Your task to perform on an android device: change the clock display to digital Image 0: 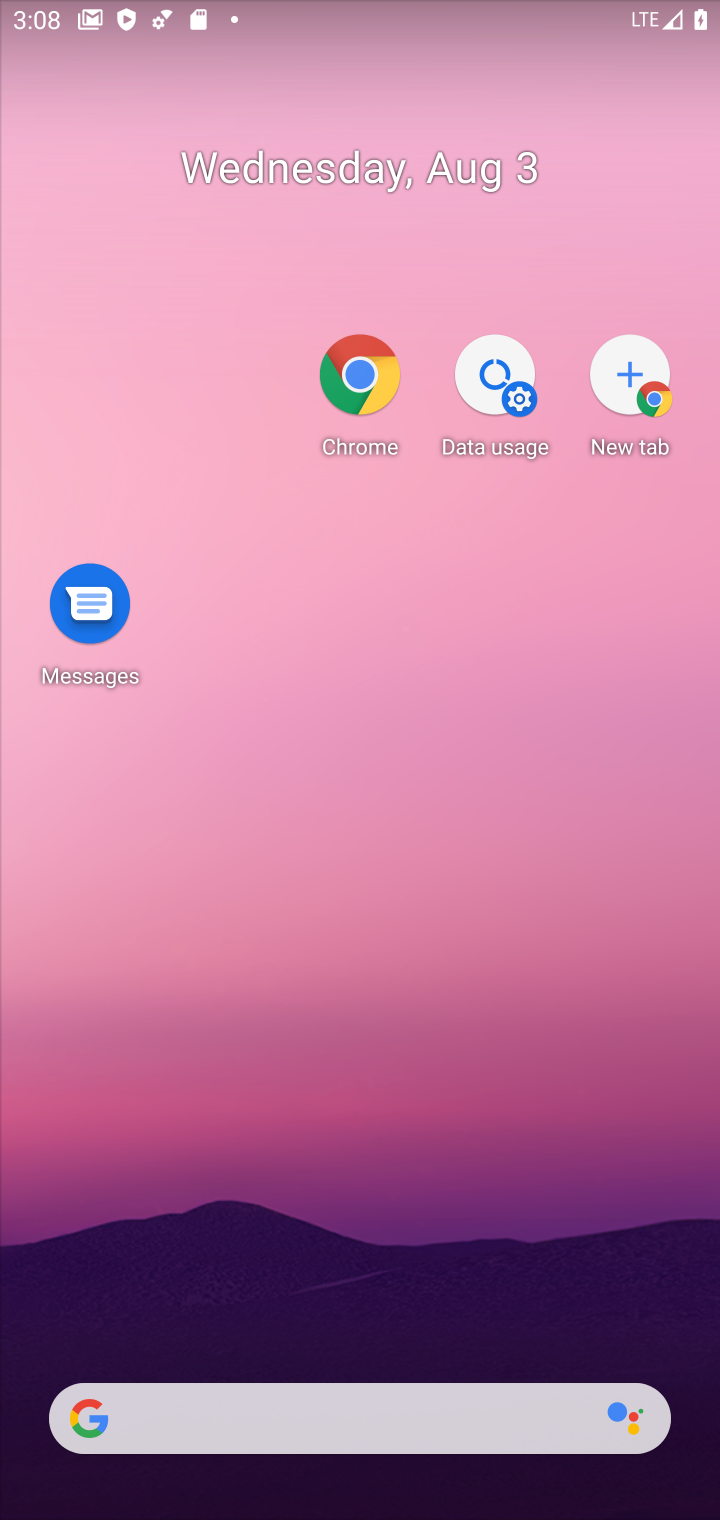
Step 0: press back button
Your task to perform on an android device: change the clock display to digital Image 1: 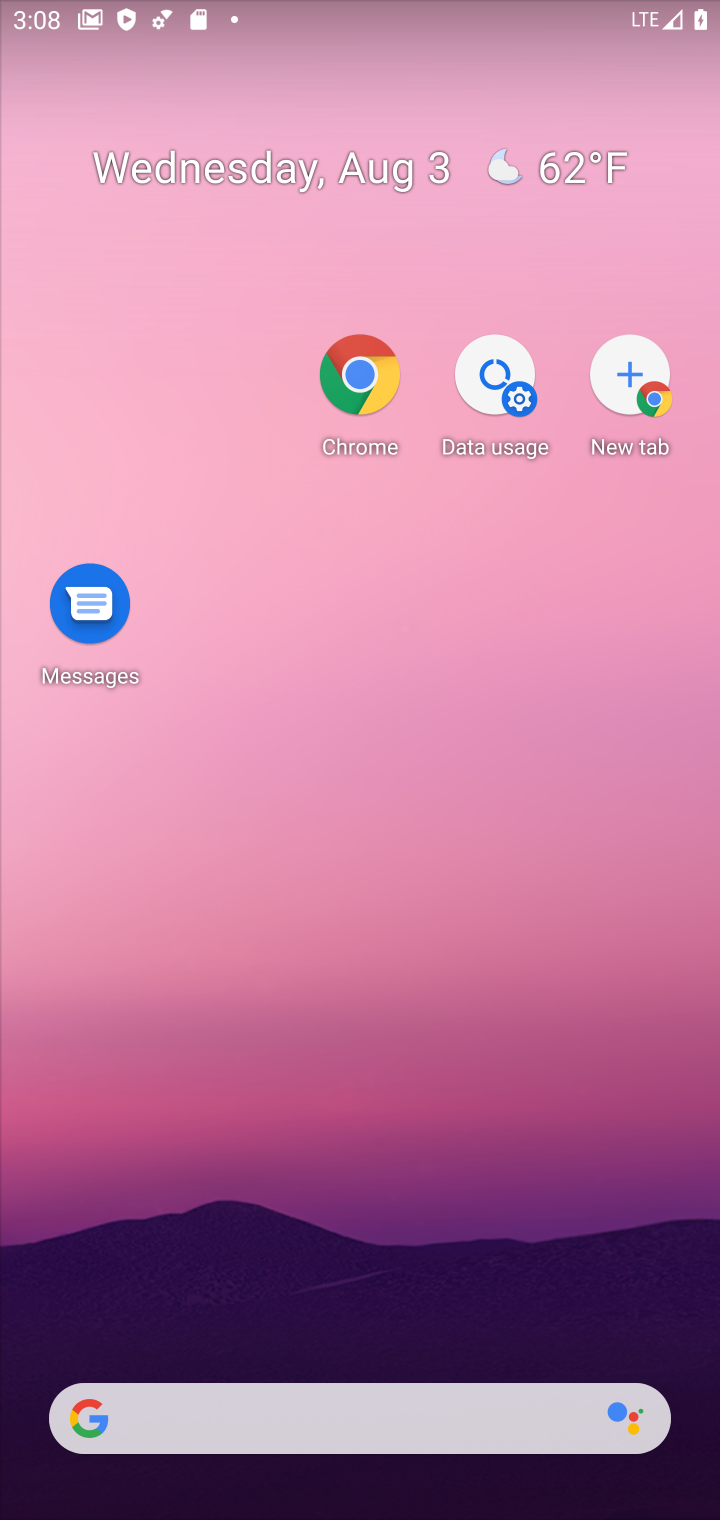
Step 1: drag from (352, 1120) to (355, 339)
Your task to perform on an android device: change the clock display to digital Image 2: 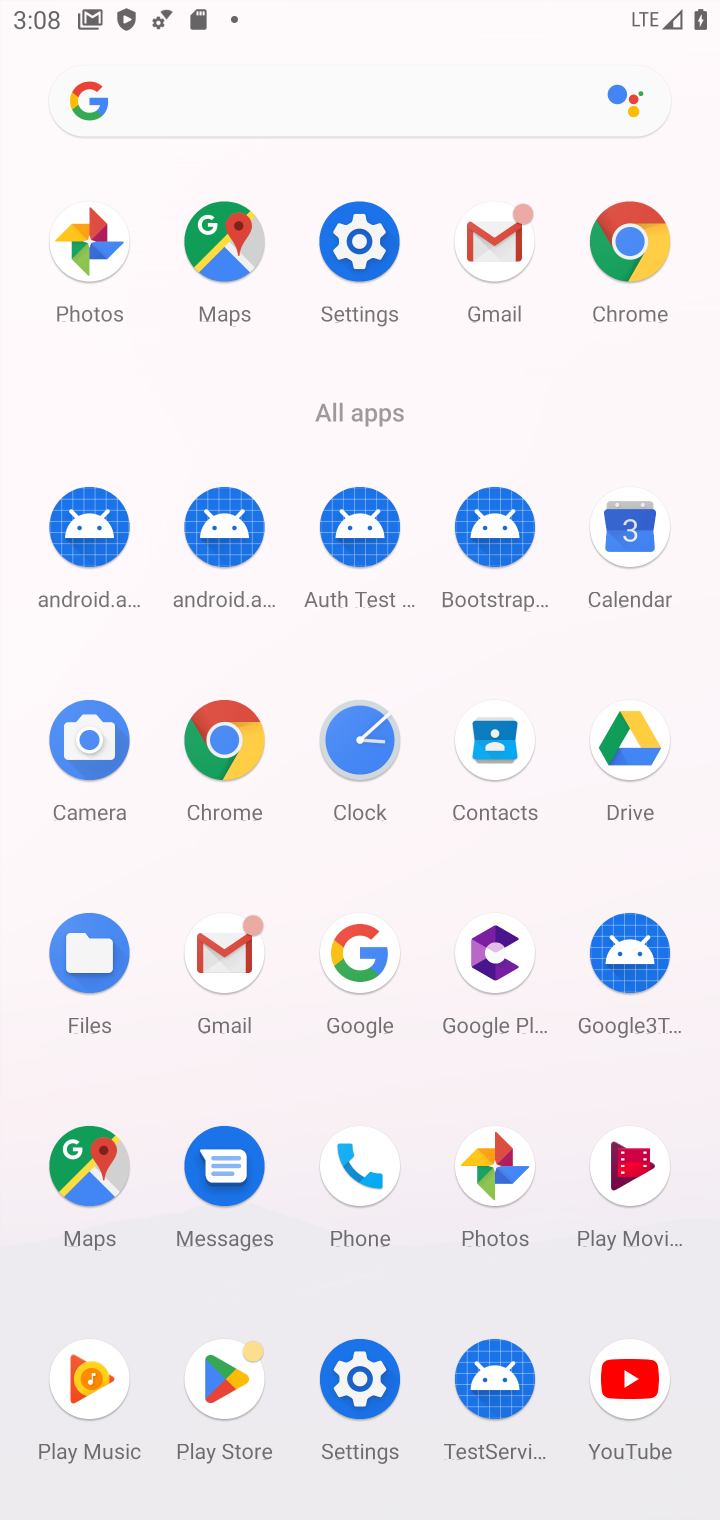
Step 2: click (357, 738)
Your task to perform on an android device: change the clock display to digital Image 3: 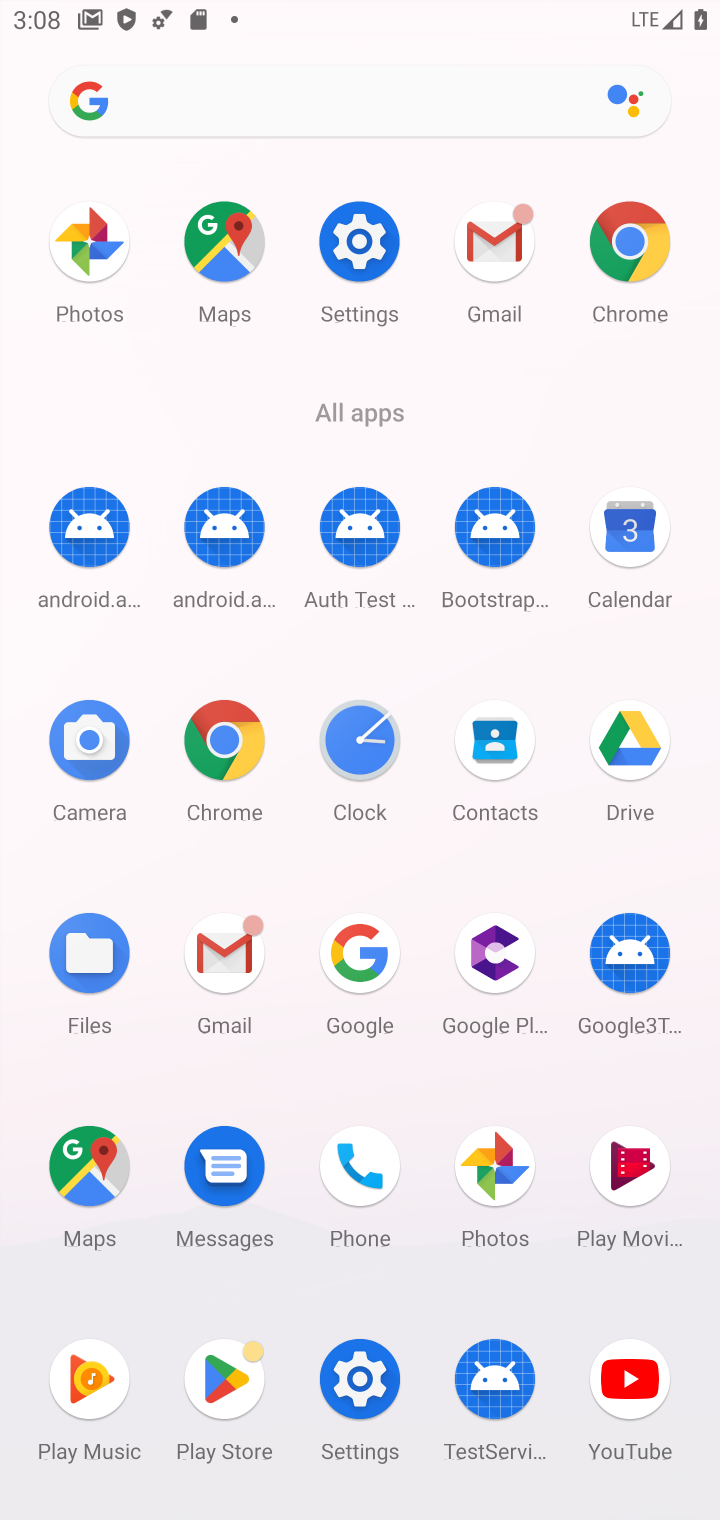
Step 3: click (357, 738)
Your task to perform on an android device: change the clock display to digital Image 4: 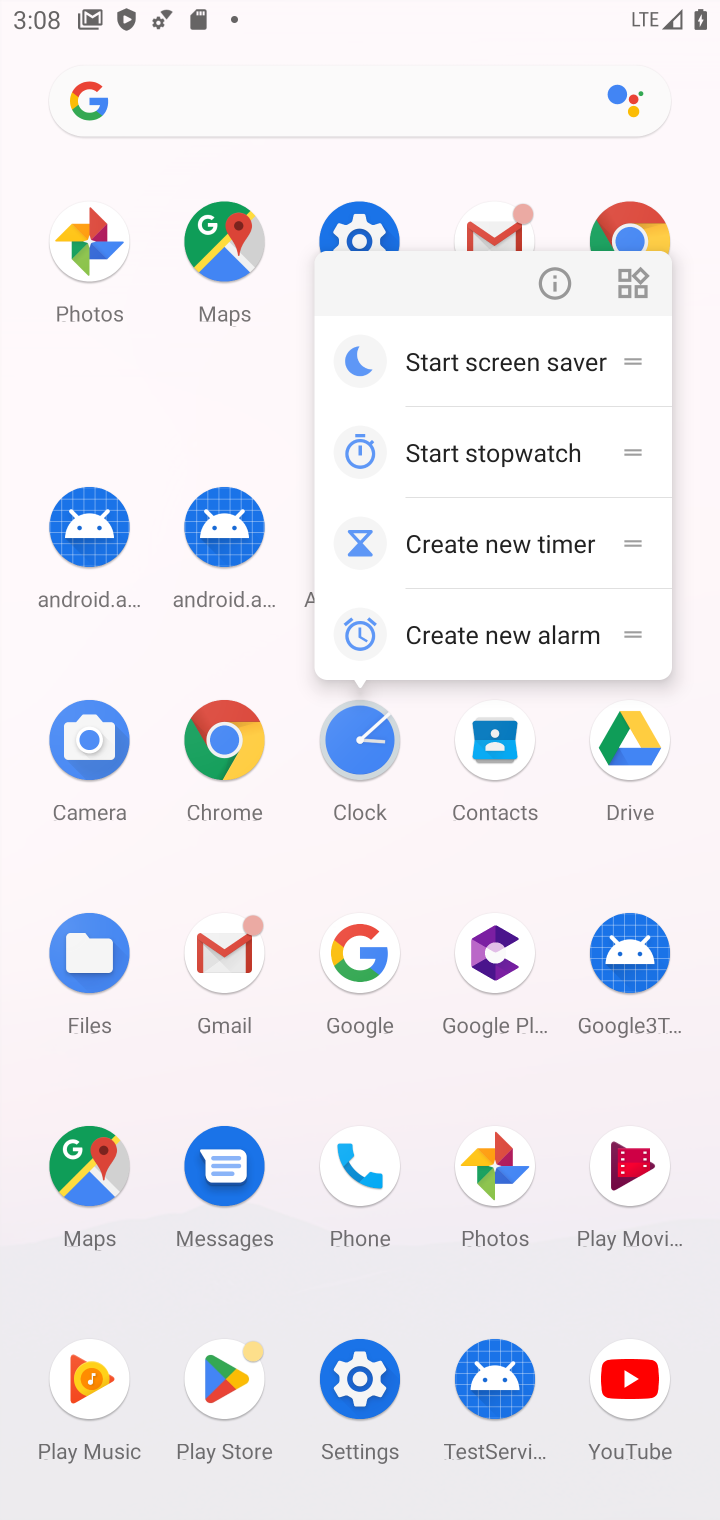
Step 4: click (218, 401)
Your task to perform on an android device: change the clock display to digital Image 5: 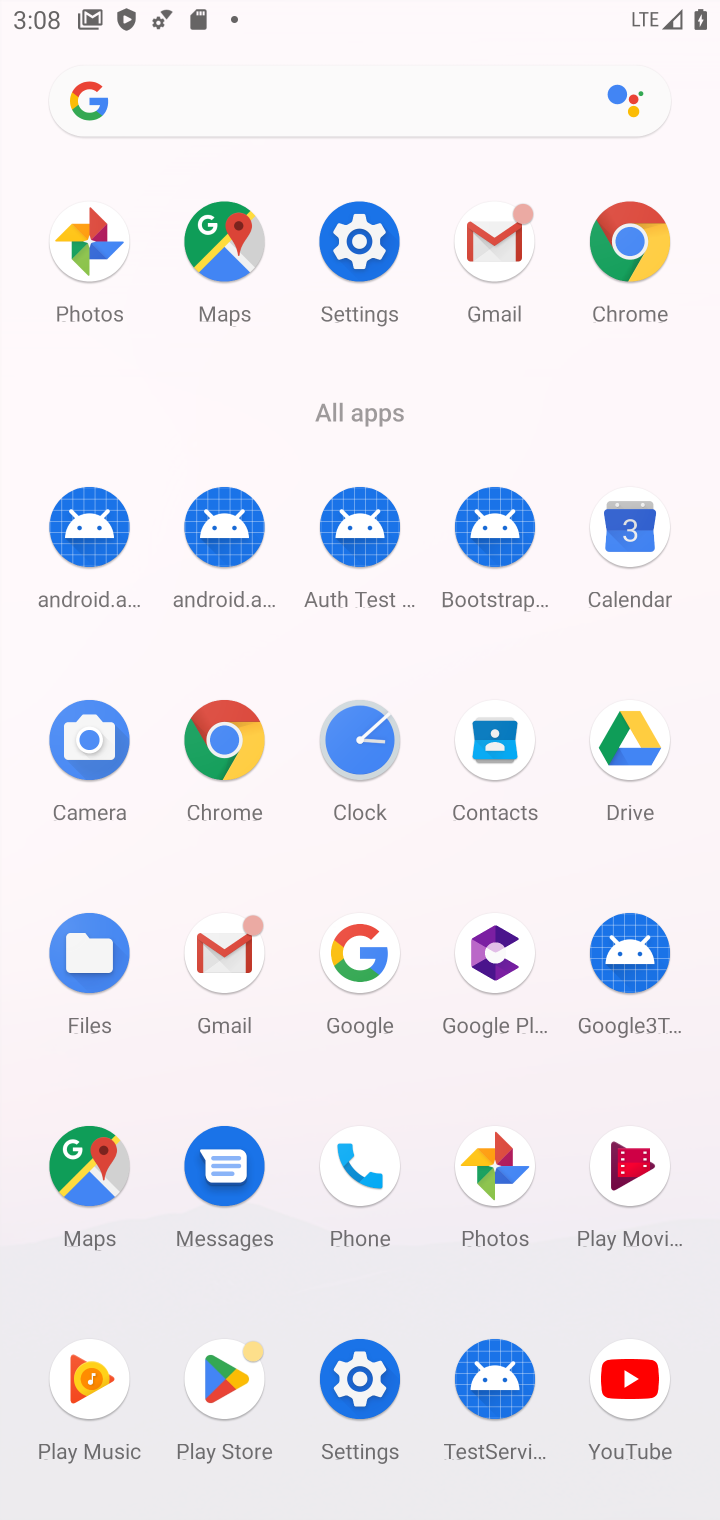
Step 5: click (218, 379)
Your task to perform on an android device: change the clock display to digital Image 6: 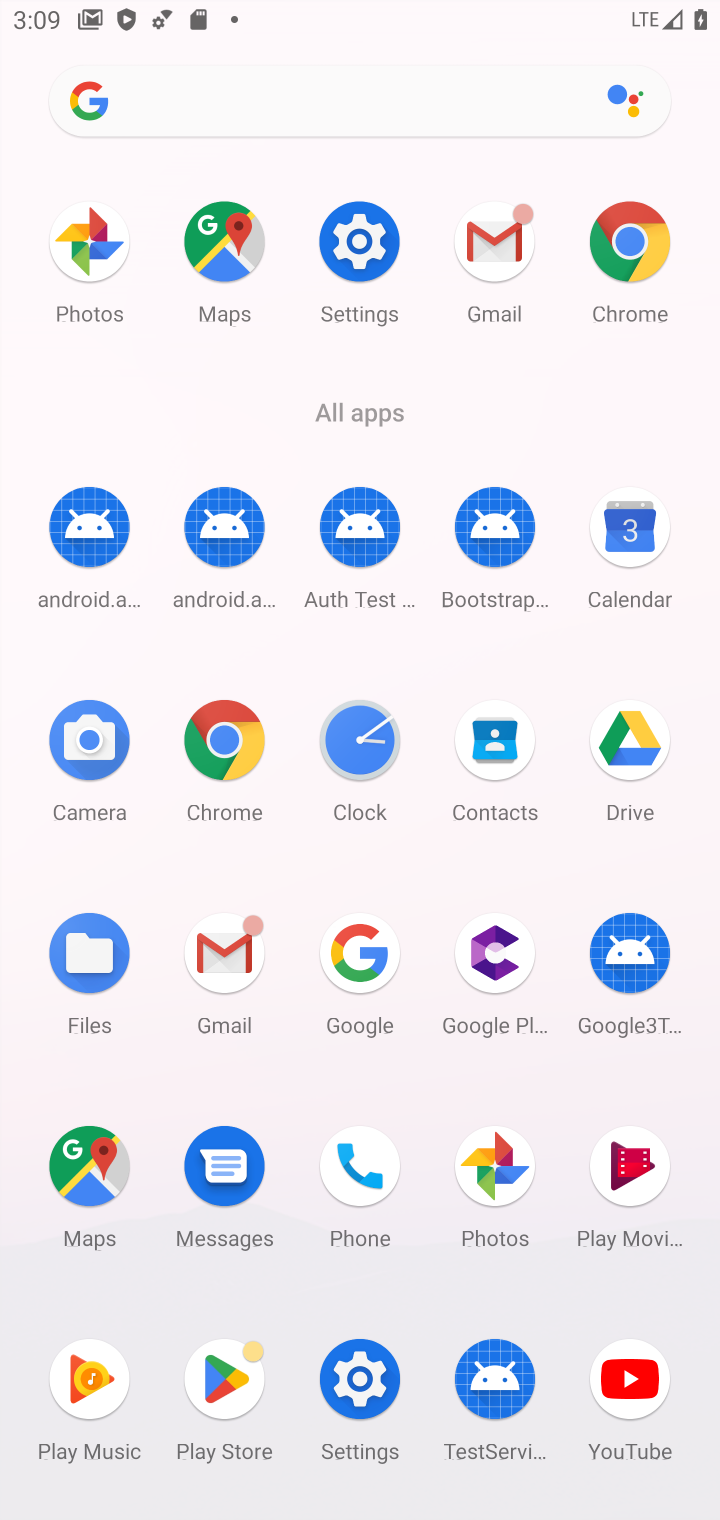
Step 6: click (359, 745)
Your task to perform on an android device: change the clock display to digital Image 7: 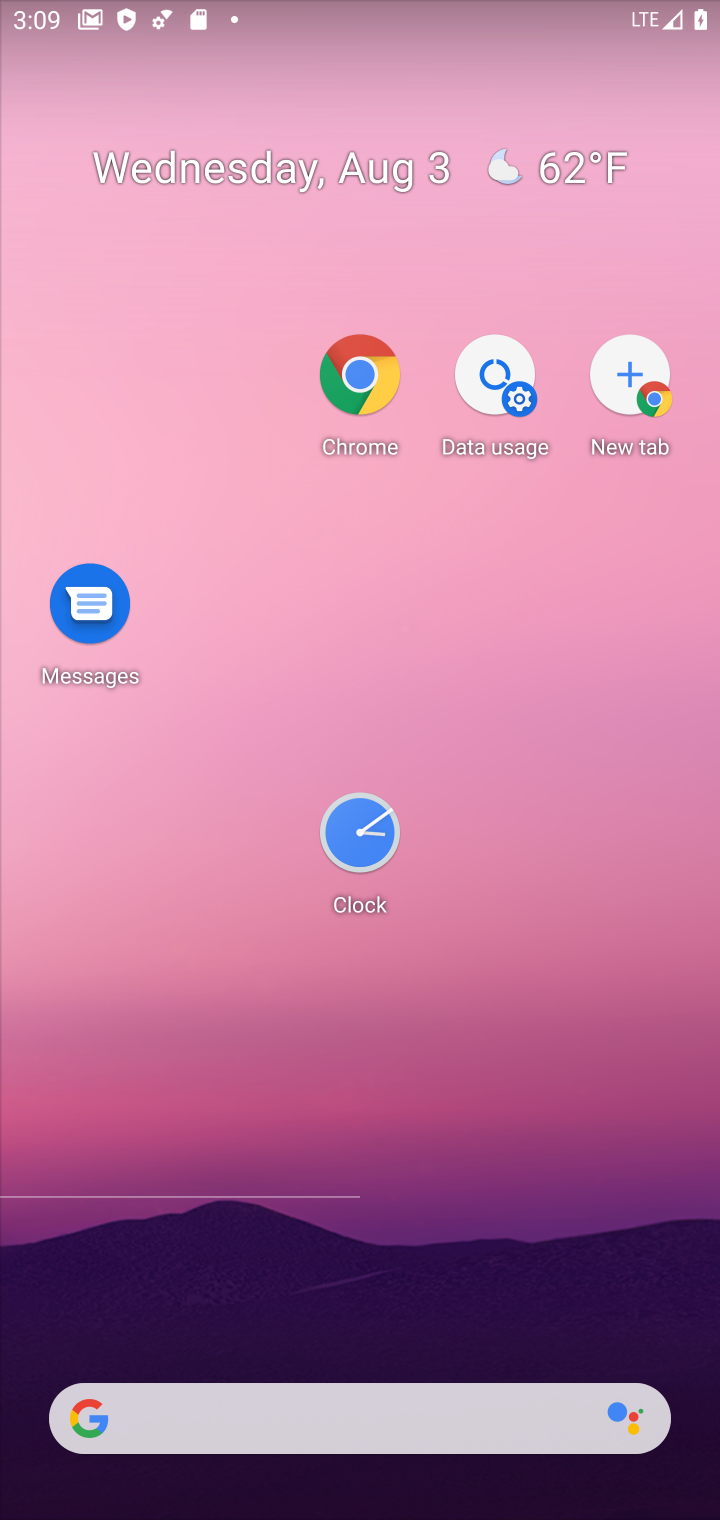
Step 7: drag from (148, 19) to (368, 607)
Your task to perform on an android device: change the clock display to digital Image 8: 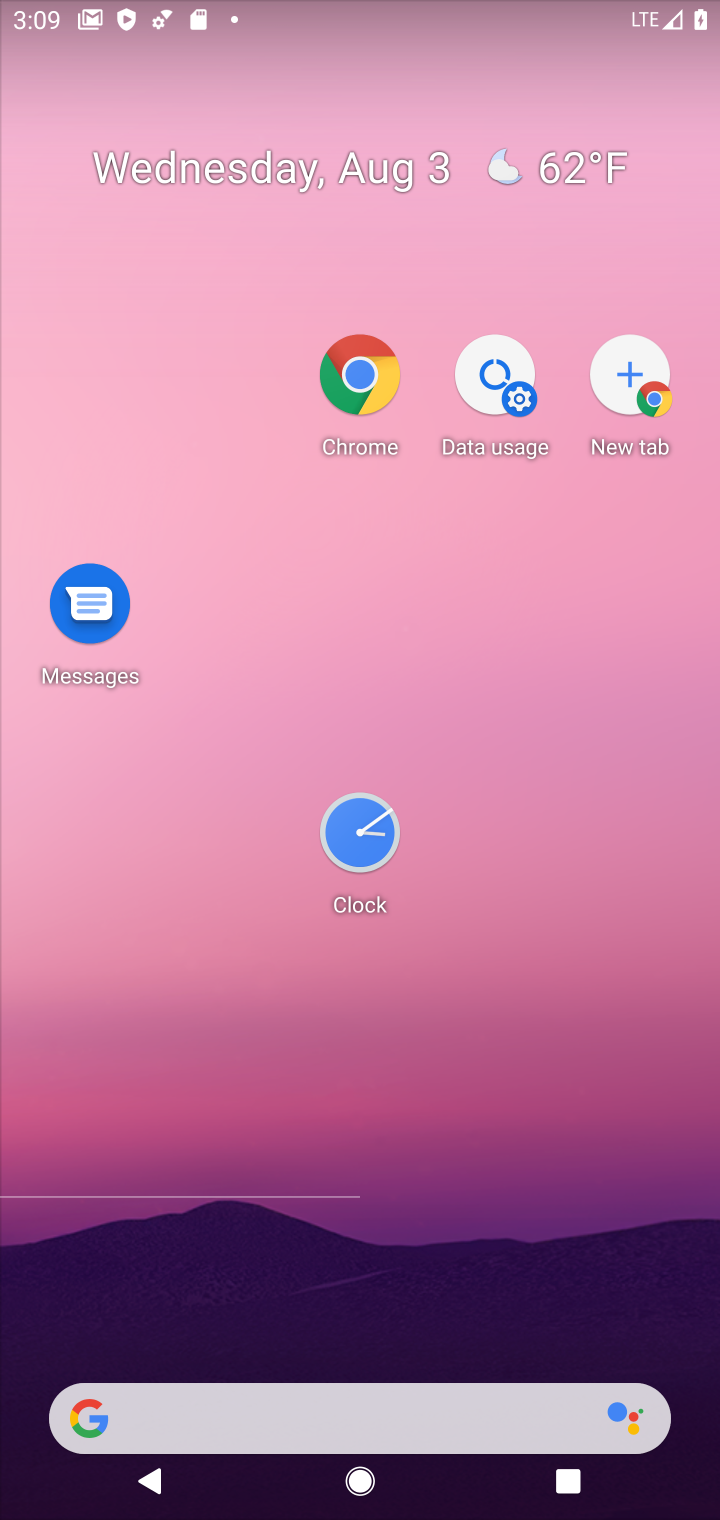
Step 8: drag from (414, 899) to (239, 91)
Your task to perform on an android device: change the clock display to digital Image 9: 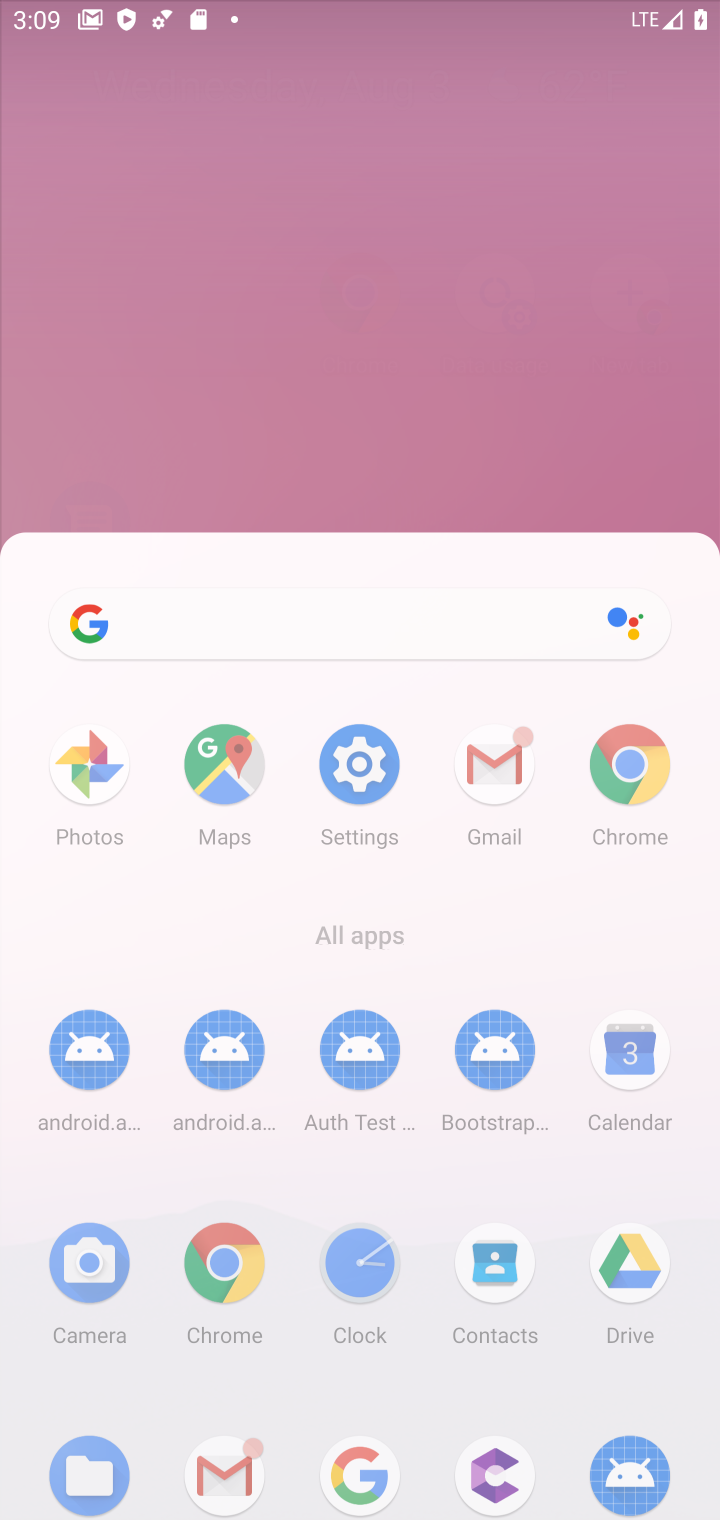
Step 9: click (364, 836)
Your task to perform on an android device: change the clock display to digital Image 10: 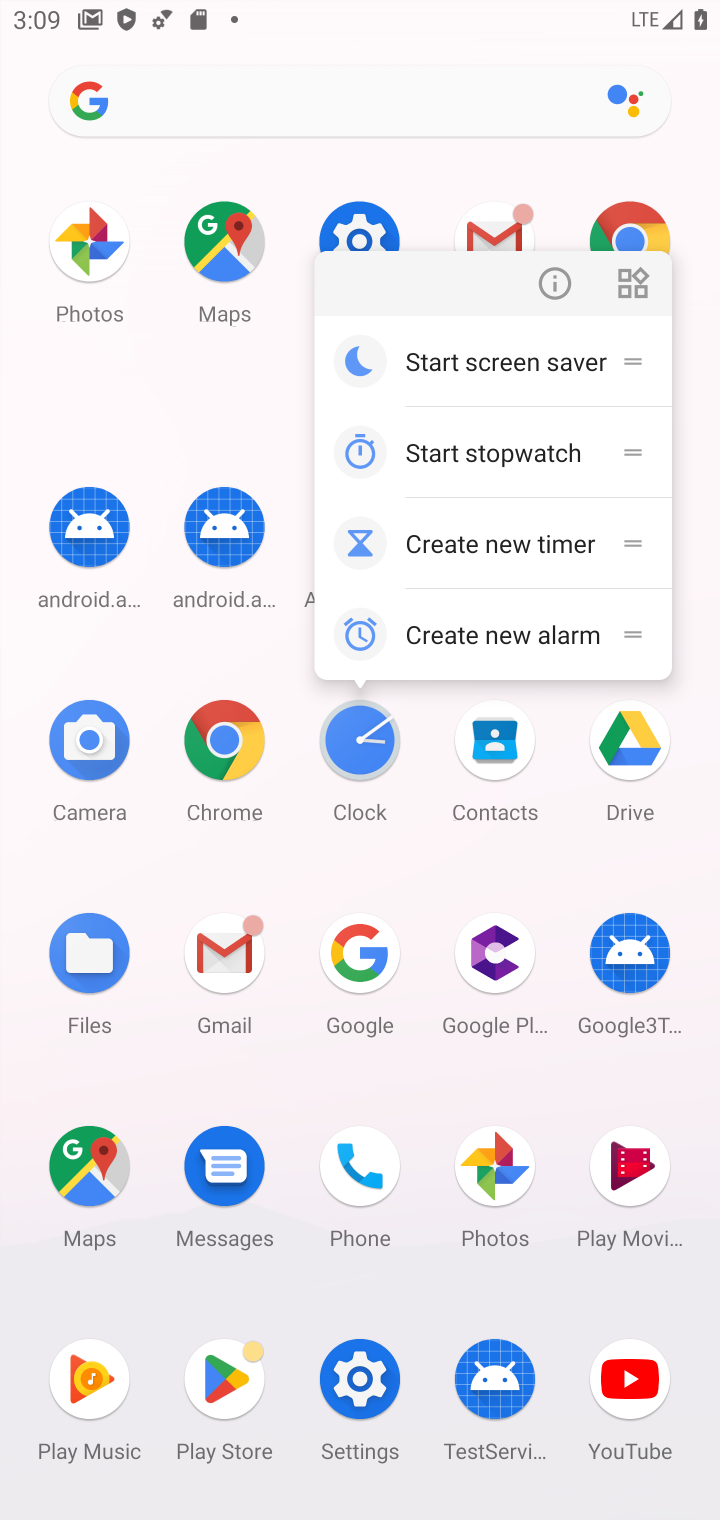
Step 10: click (371, 751)
Your task to perform on an android device: change the clock display to digital Image 11: 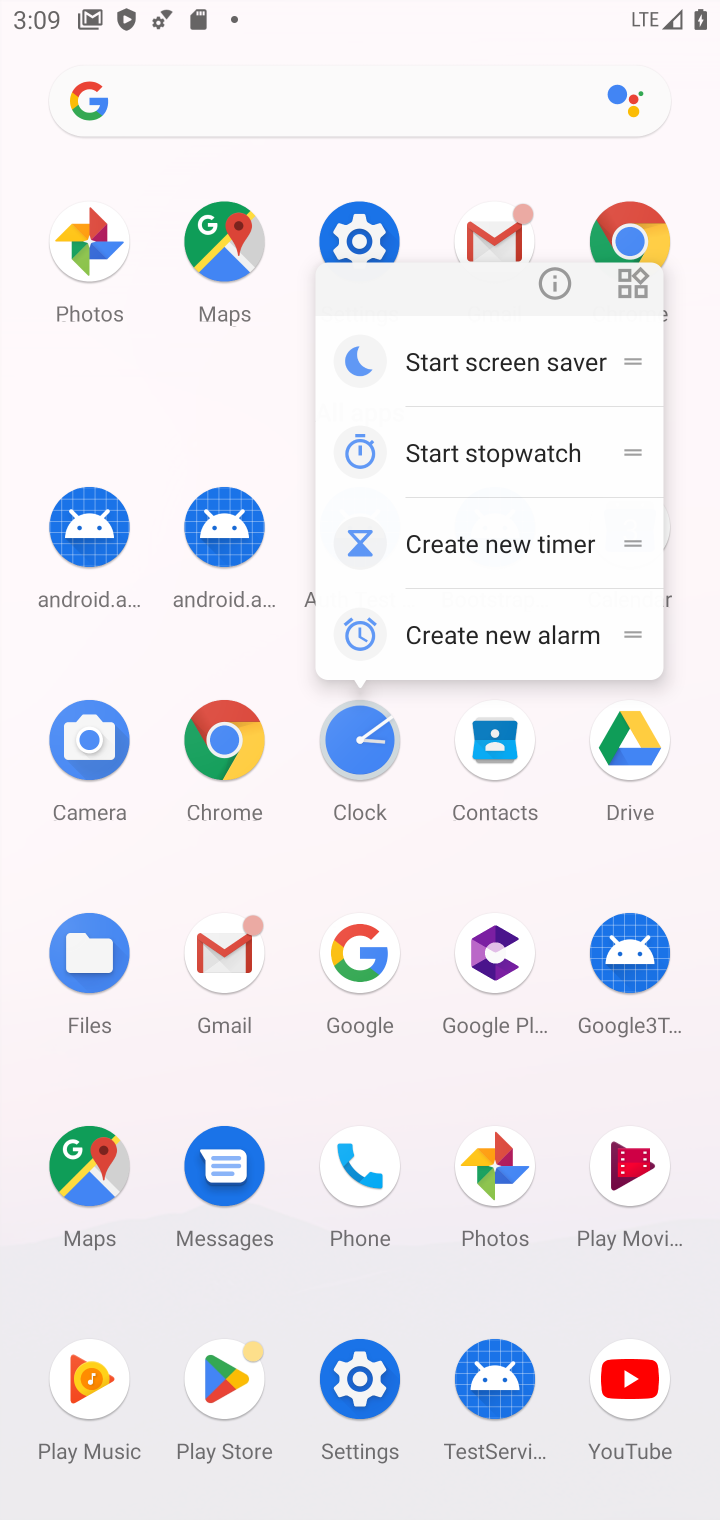
Step 11: click (370, 747)
Your task to perform on an android device: change the clock display to digital Image 12: 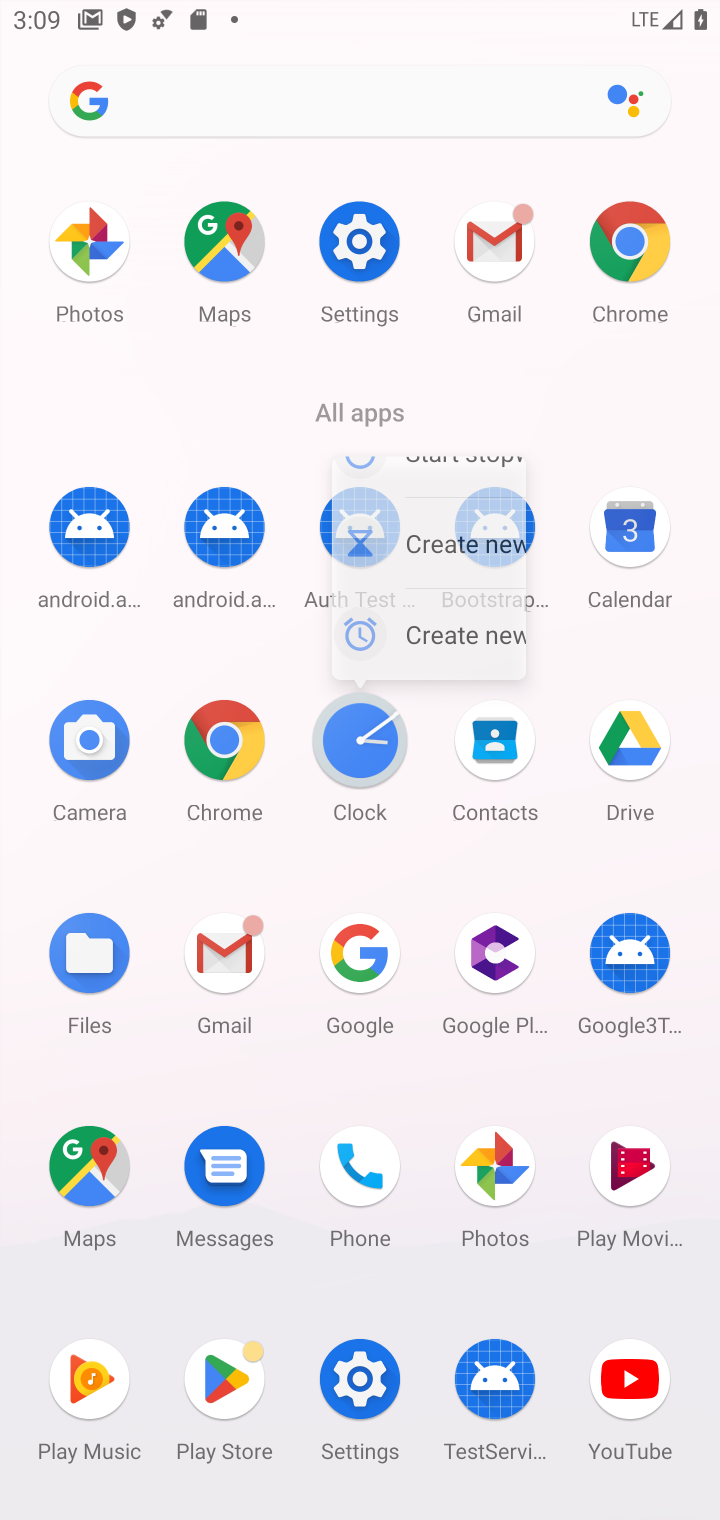
Step 12: click (360, 737)
Your task to perform on an android device: change the clock display to digital Image 13: 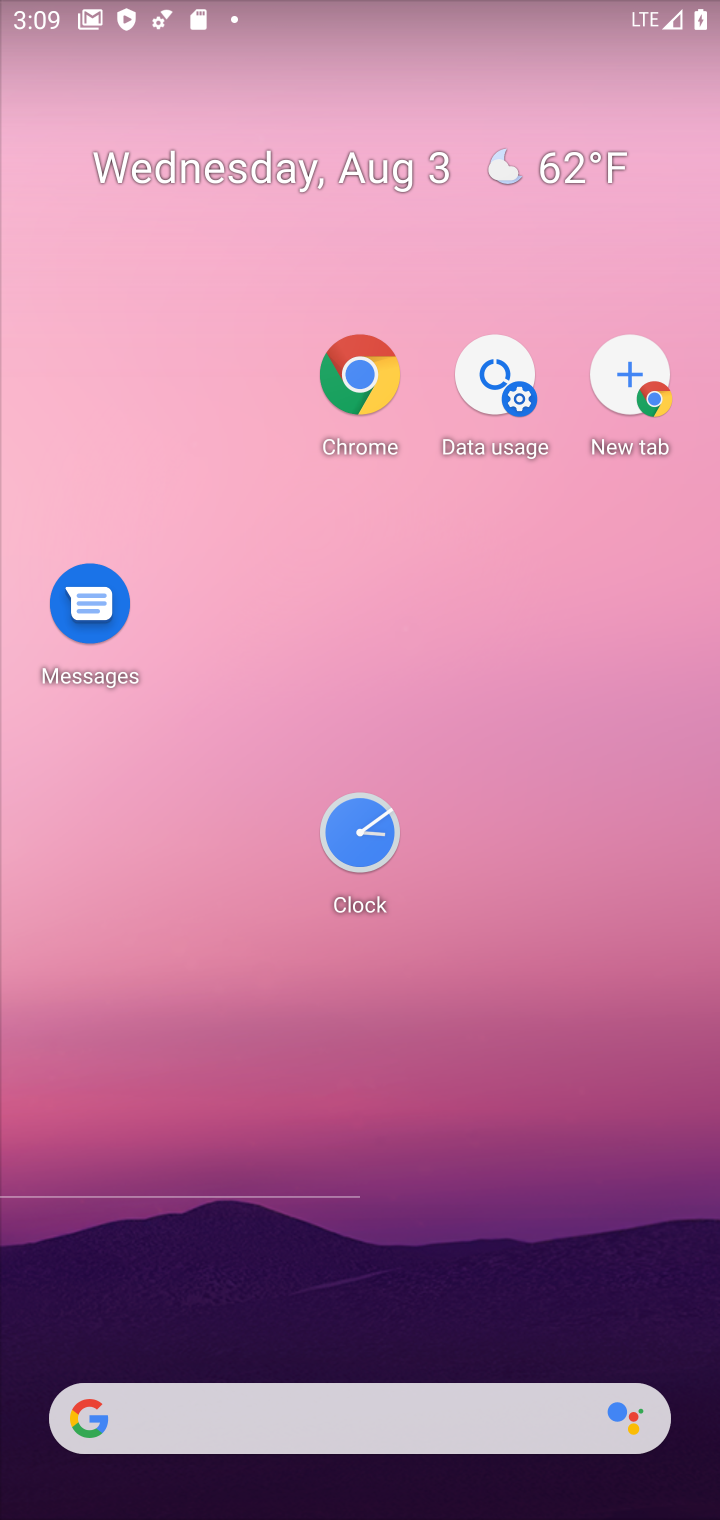
Step 13: drag from (369, 762) to (327, 240)
Your task to perform on an android device: change the clock display to digital Image 14: 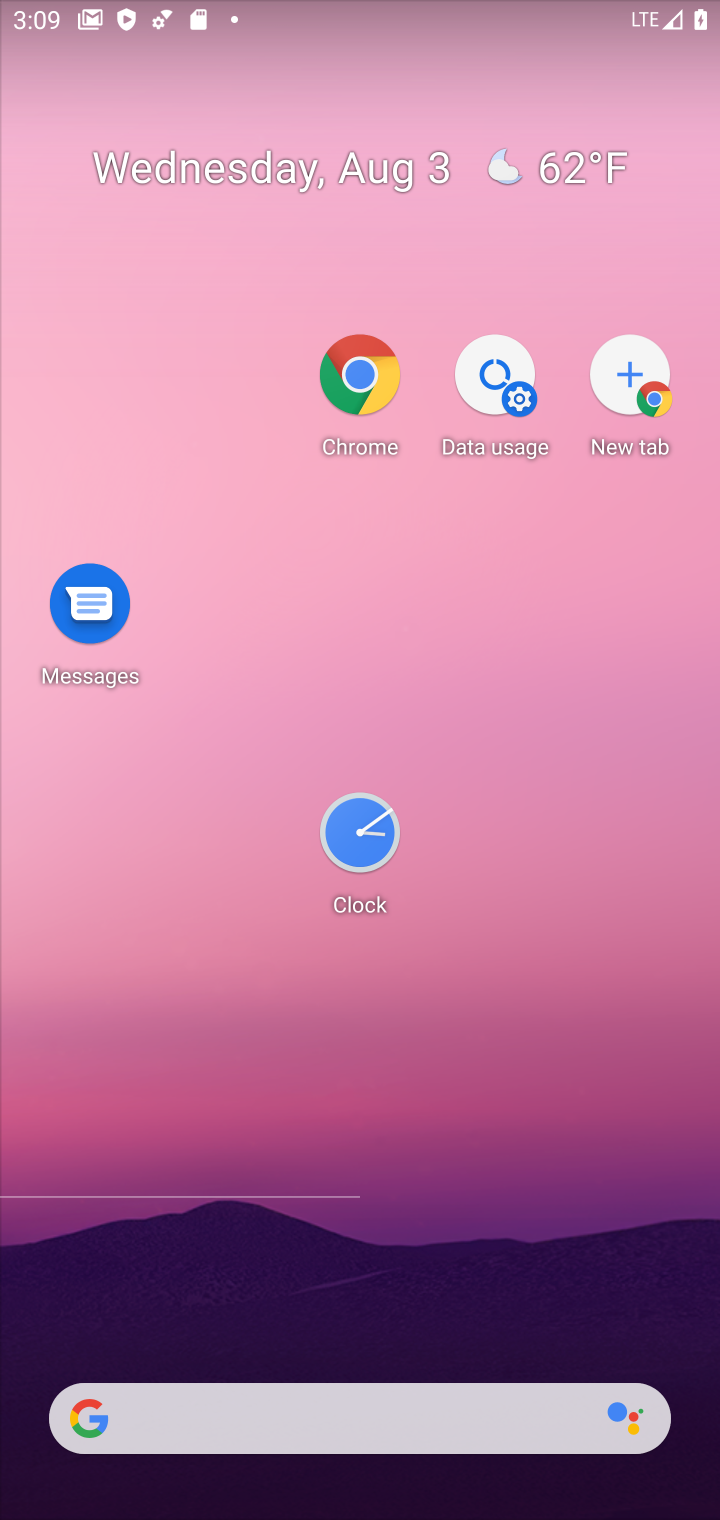
Step 14: click (199, 220)
Your task to perform on an android device: change the clock display to digital Image 15: 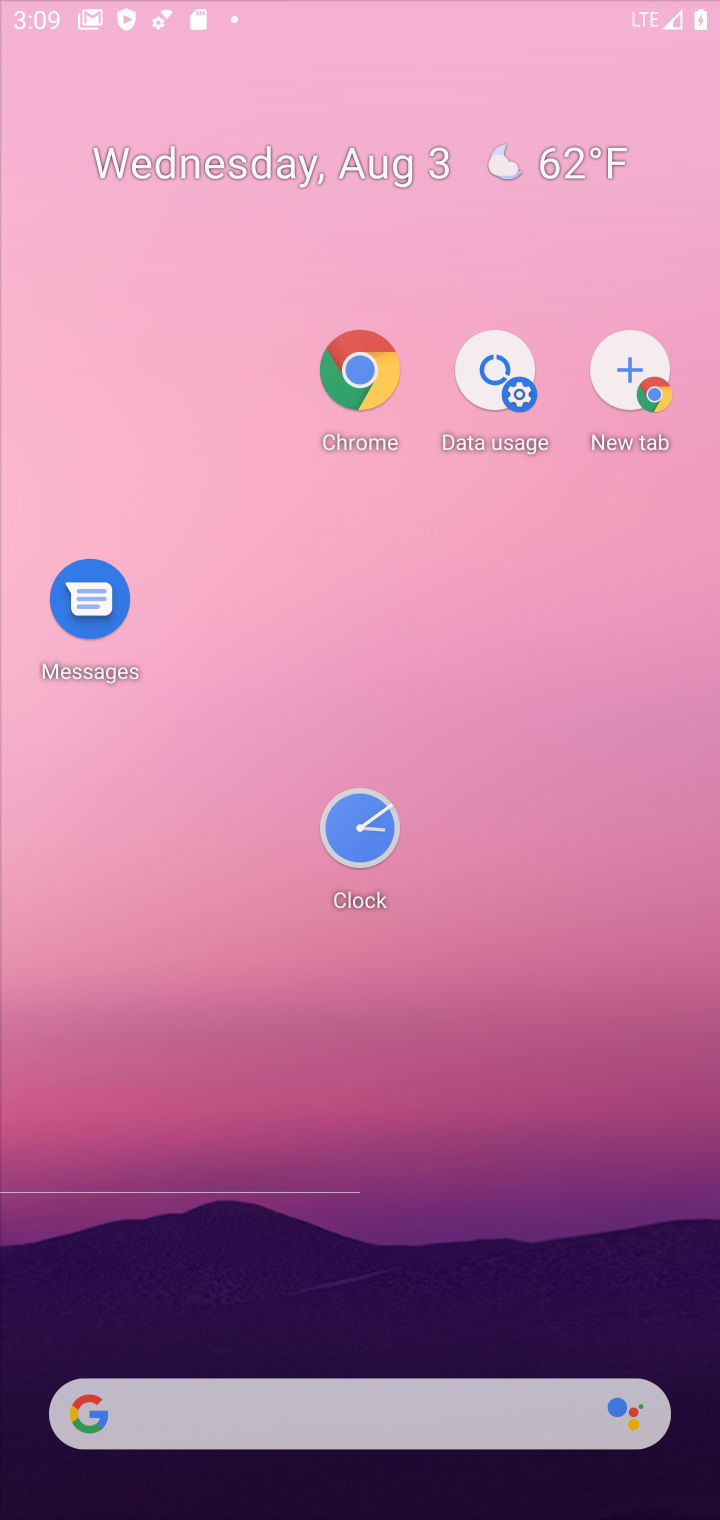
Step 15: click (342, 829)
Your task to perform on an android device: change the clock display to digital Image 16: 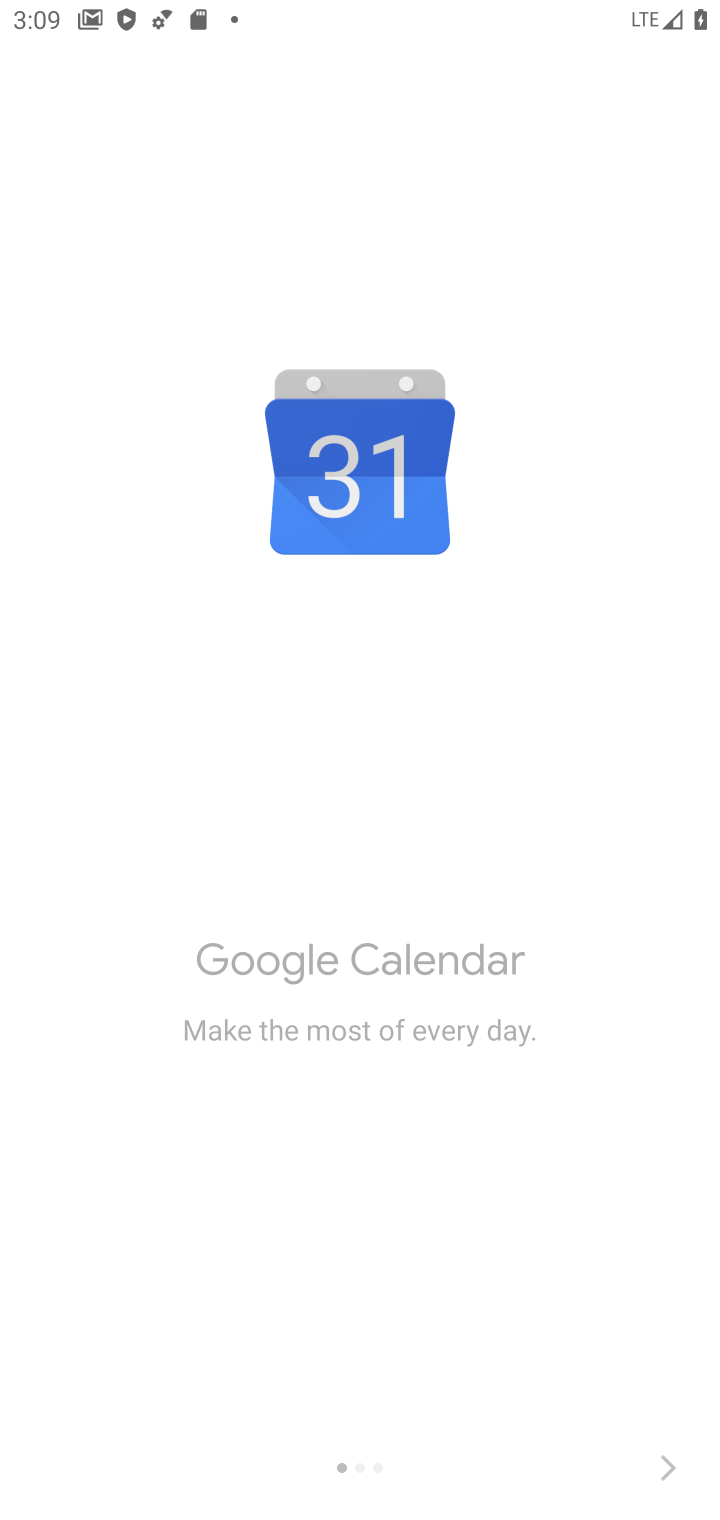
Step 16: click (336, 840)
Your task to perform on an android device: change the clock display to digital Image 17: 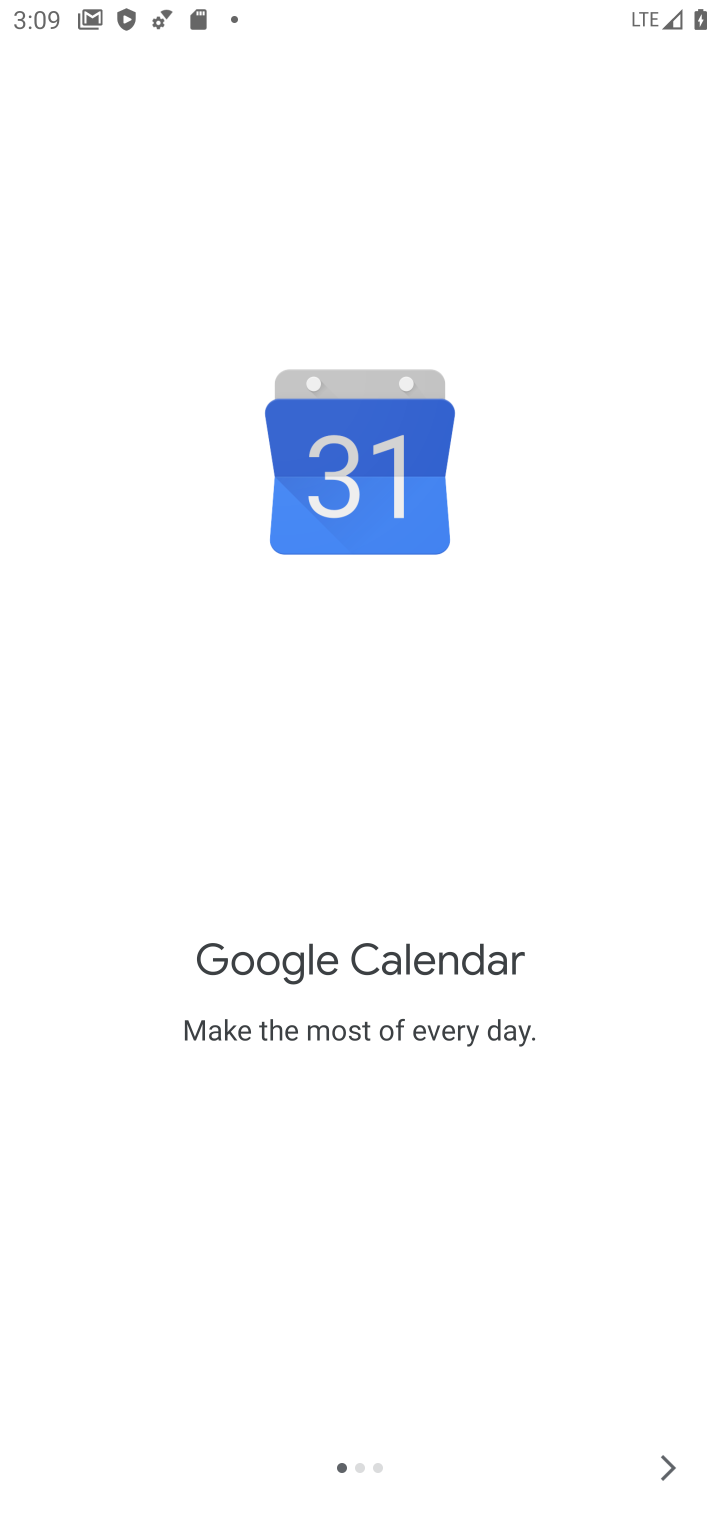
Step 17: press back button
Your task to perform on an android device: change the clock display to digital Image 18: 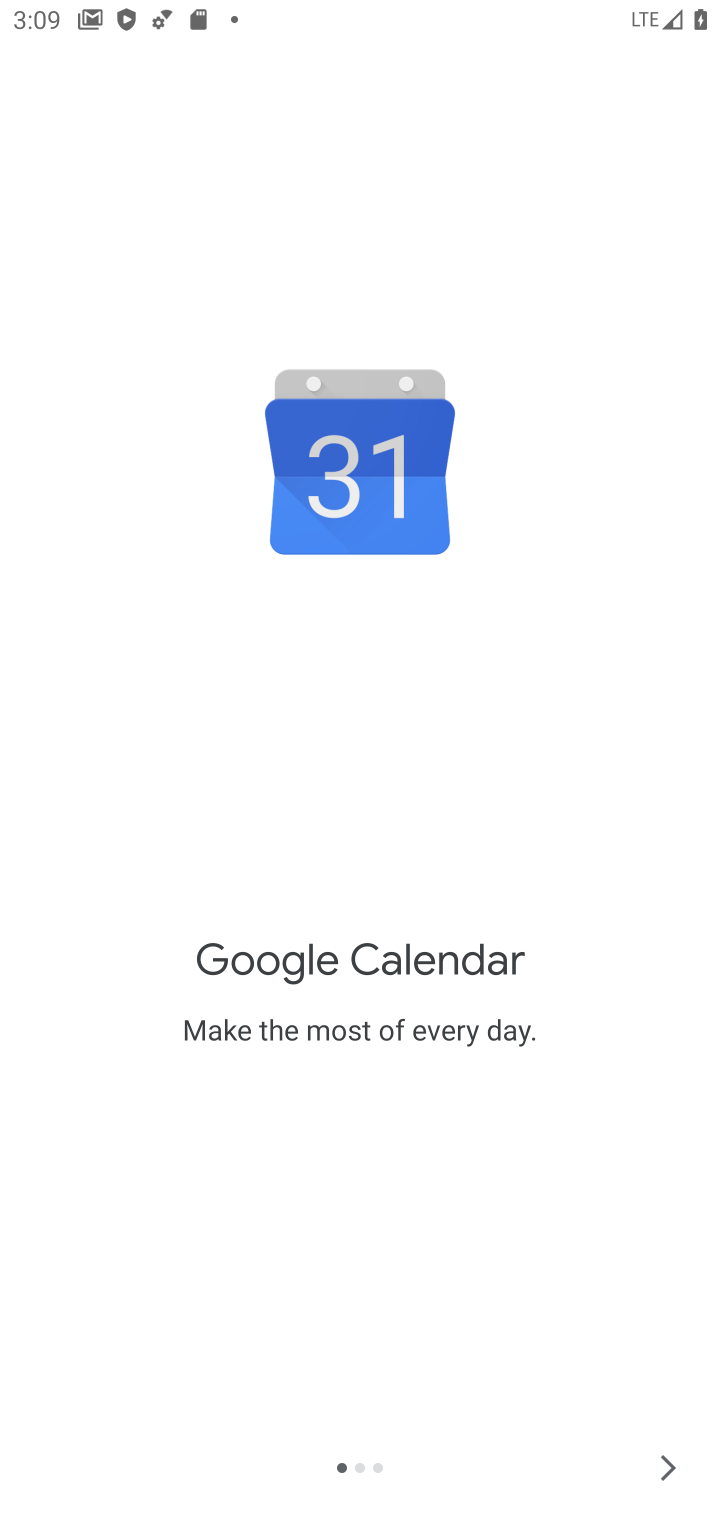
Step 18: press back button
Your task to perform on an android device: change the clock display to digital Image 19: 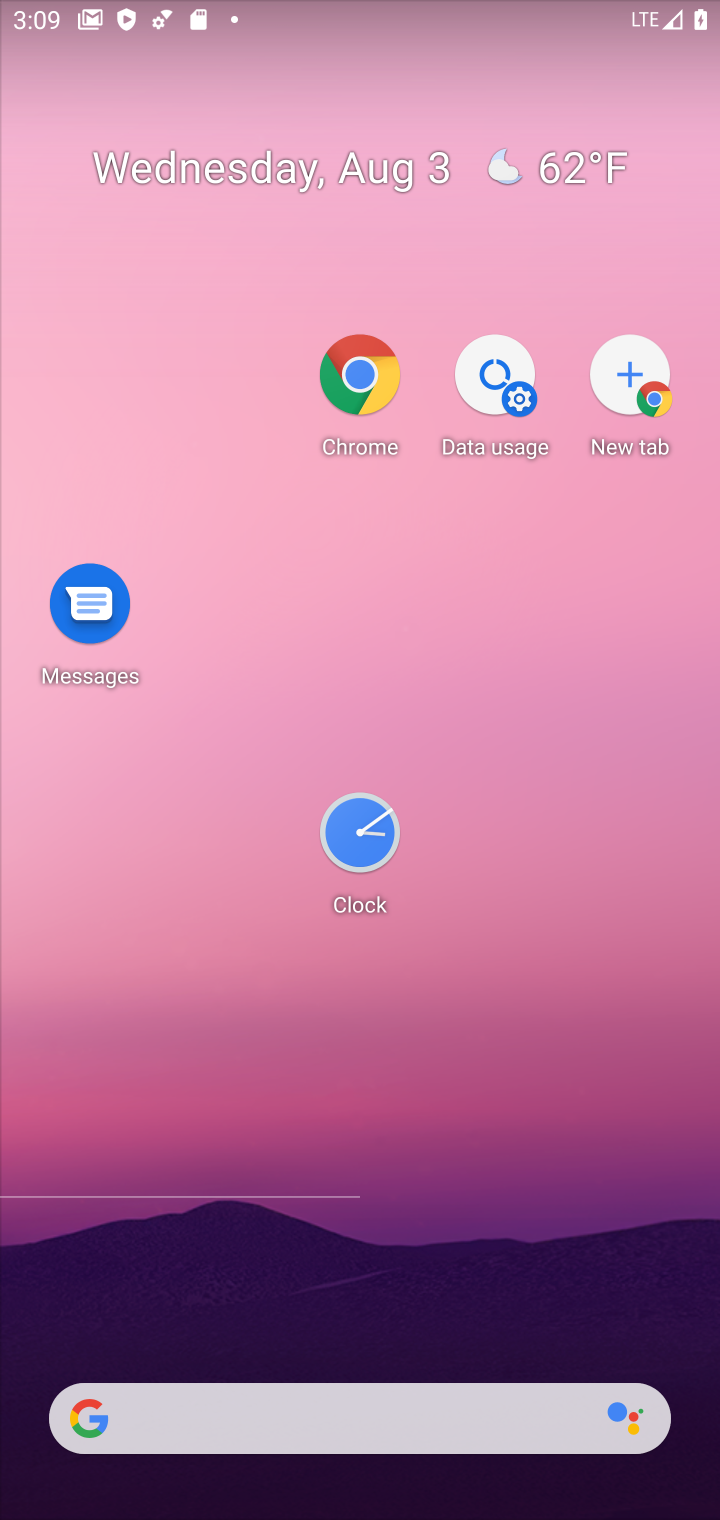
Step 19: press home button
Your task to perform on an android device: change the clock display to digital Image 20: 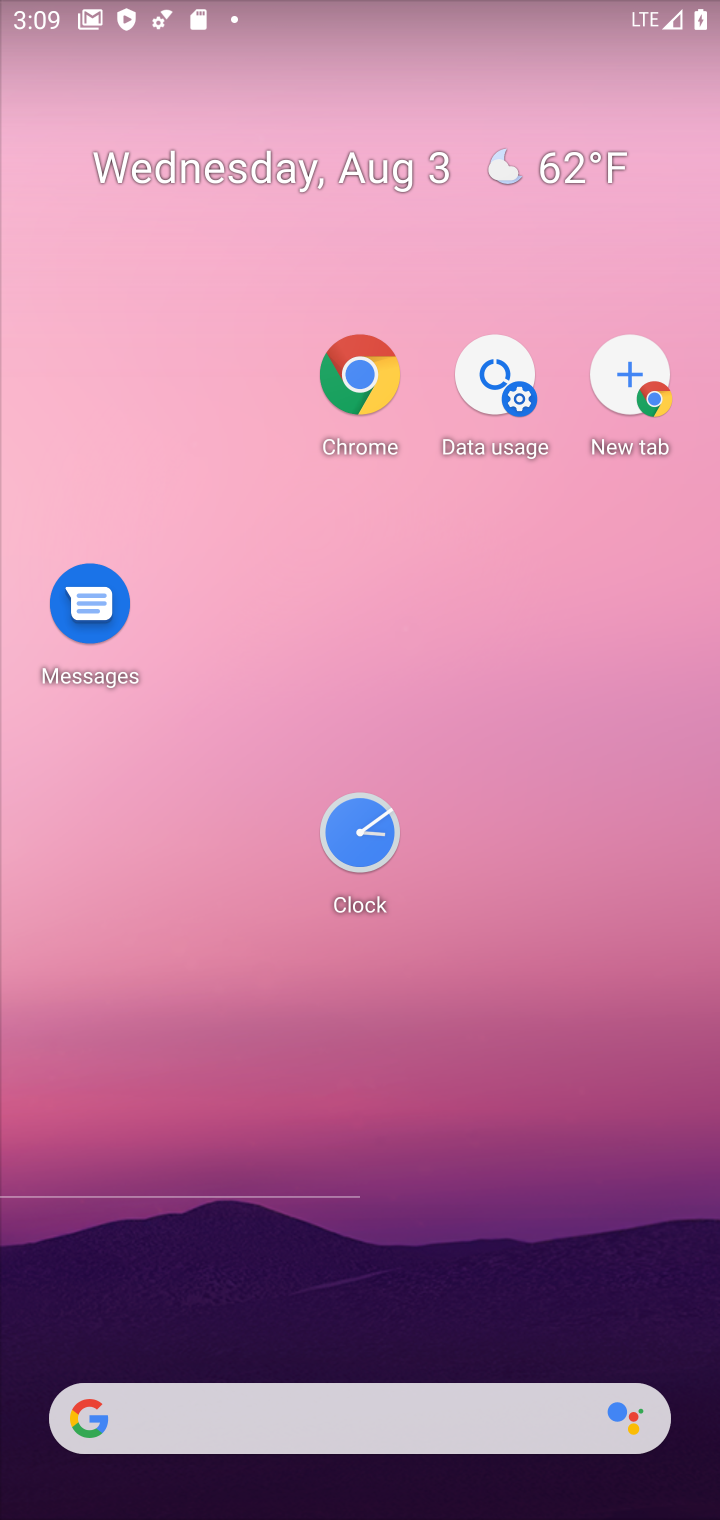
Step 20: drag from (575, 1090) to (348, 187)
Your task to perform on an android device: change the clock display to digital Image 21: 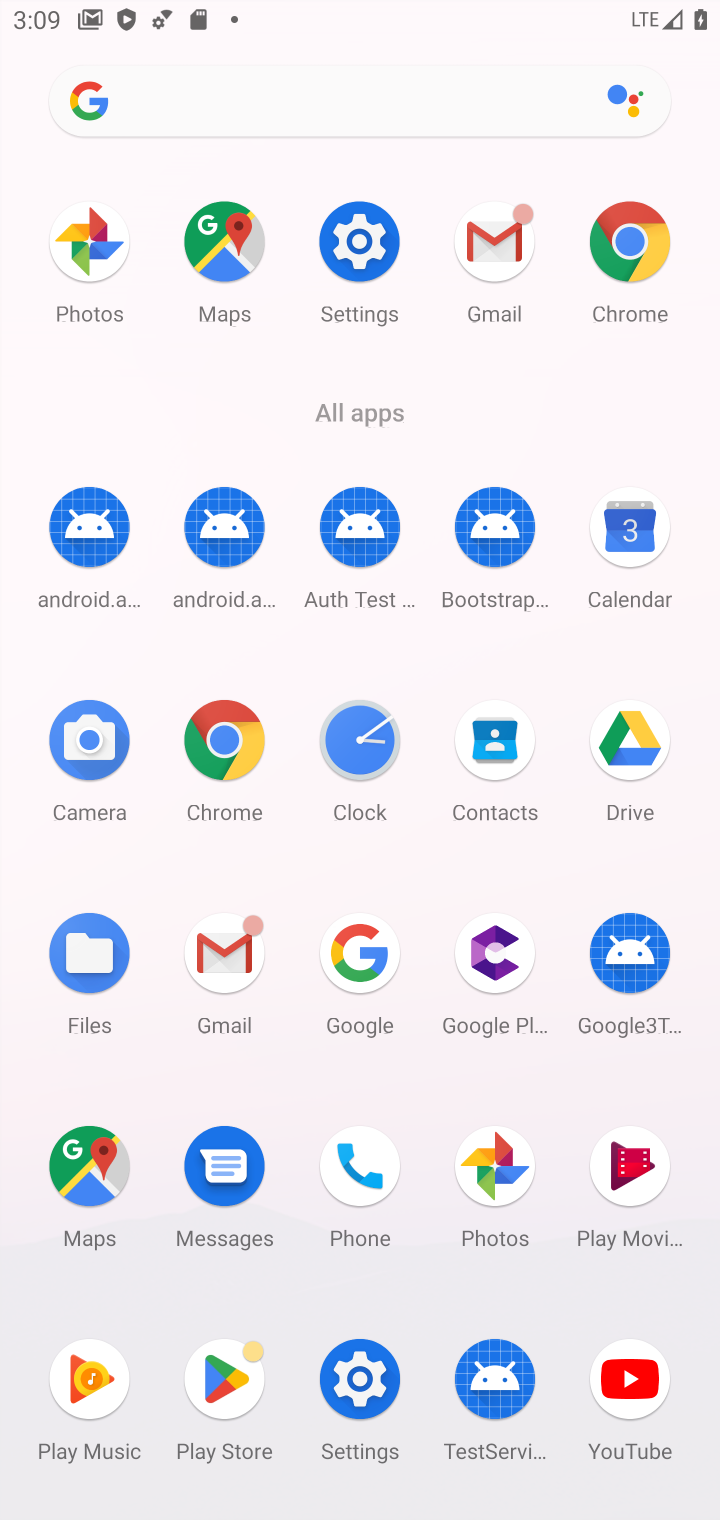
Step 21: click (404, 469)
Your task to perform on an android device: change the clock display to digital Image 22: 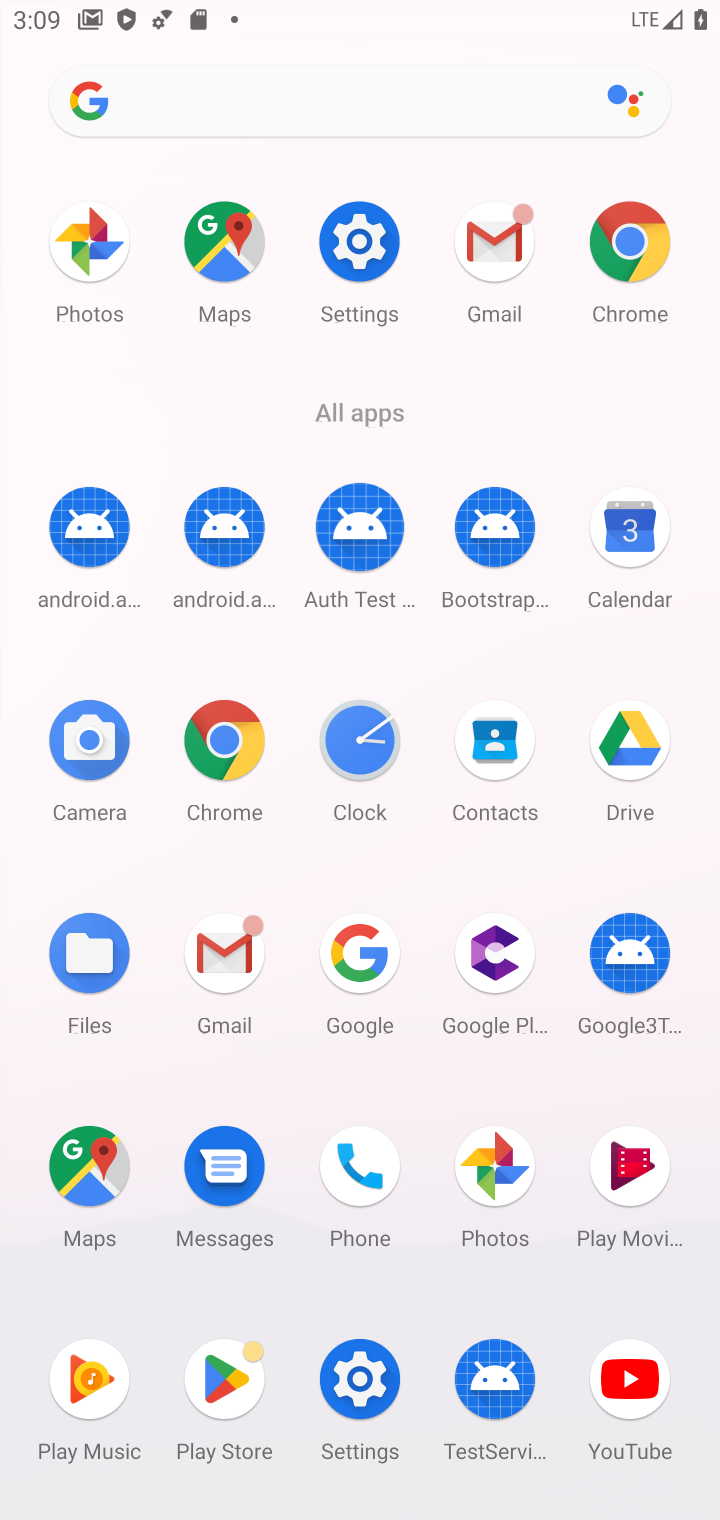
Step 22: click (350, 250)
Your task to perform on an android device: change the clock display to digital Image 23: 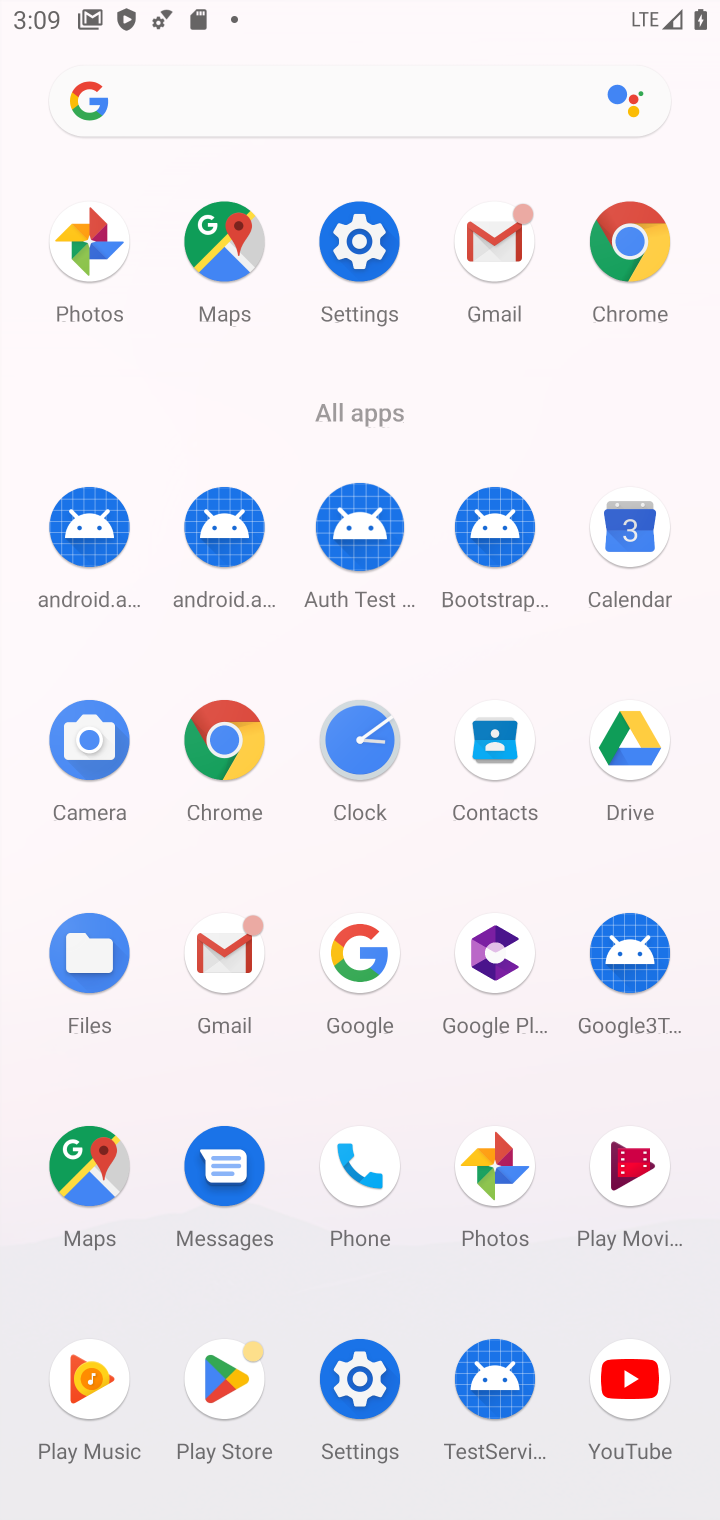
Step 23: click (350, 250)
Your task to perform on an android device: change the clock display to digital Image 24: 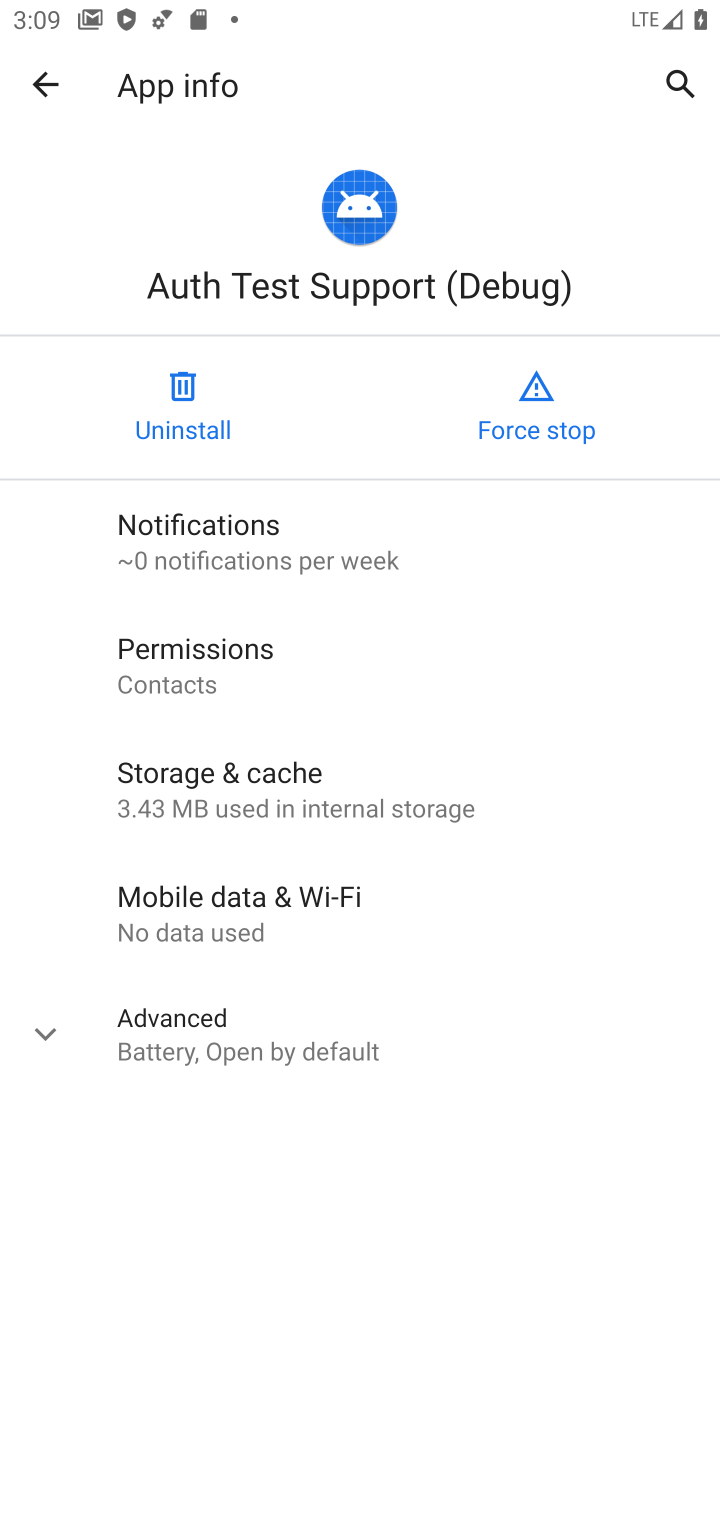
Step 24: press back button
Your task to perform on an android device: change the clock display to digital Image 25: 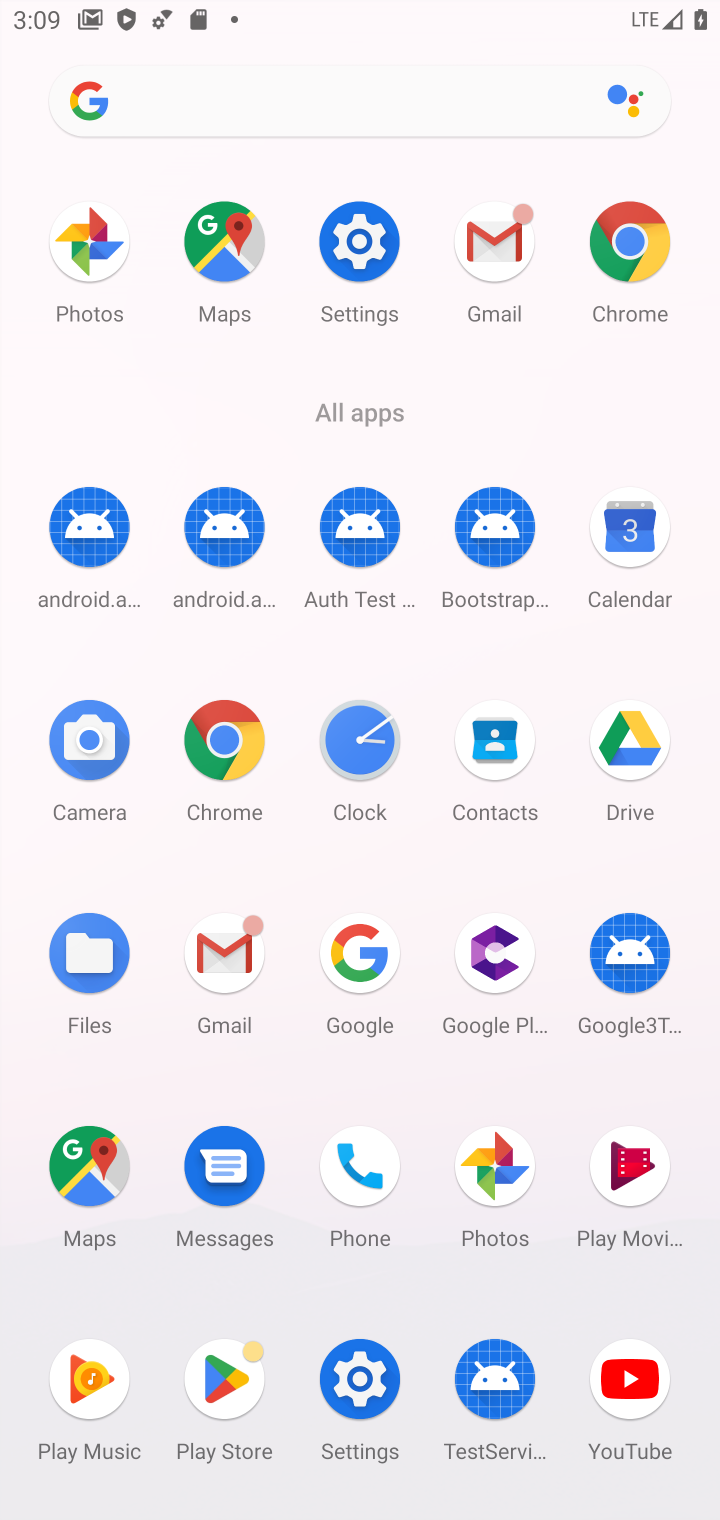
Step 25: click (341, 752)
Your task to perform on an android device: change the clock display to digital Image 26: 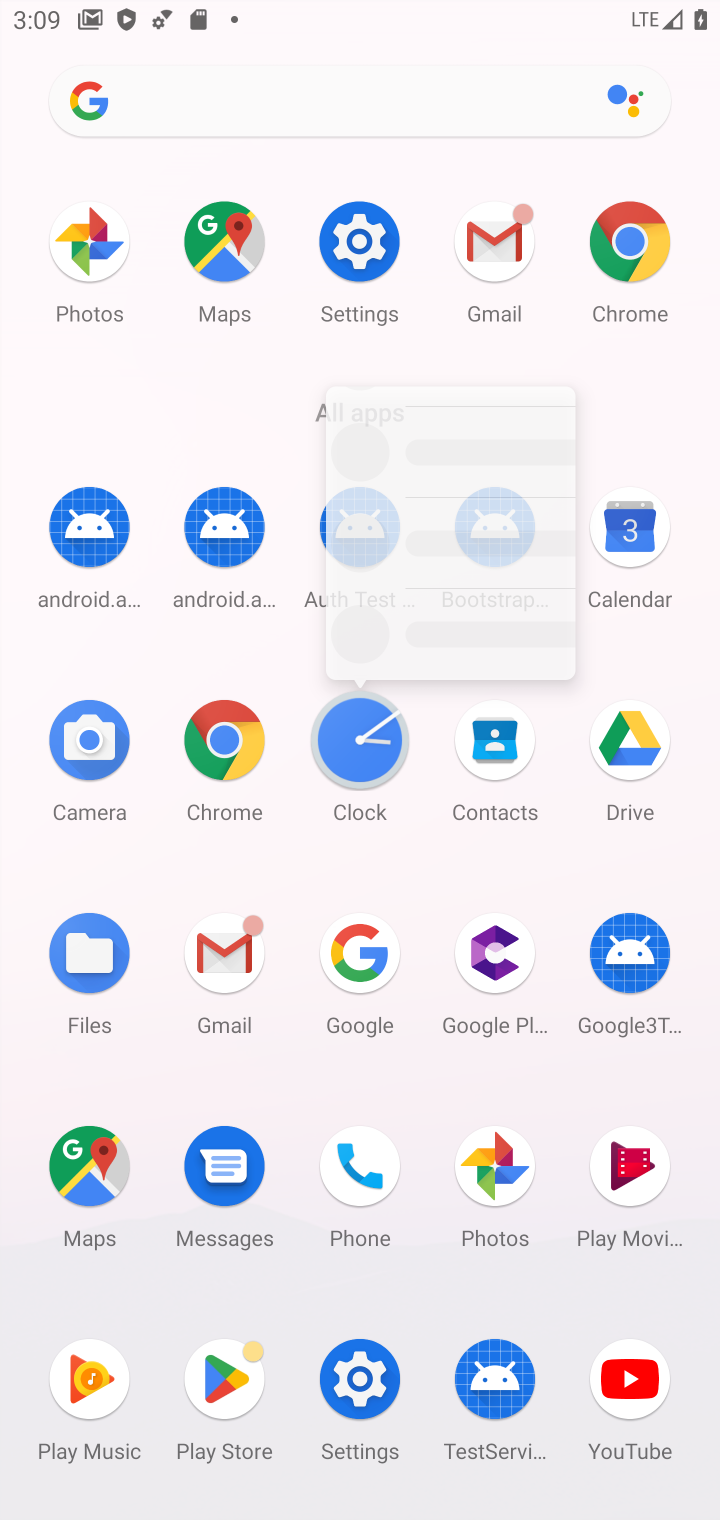
Step 26: click (341, 752)
Your task to perform on an android device: change the clock display to digital Image 27: 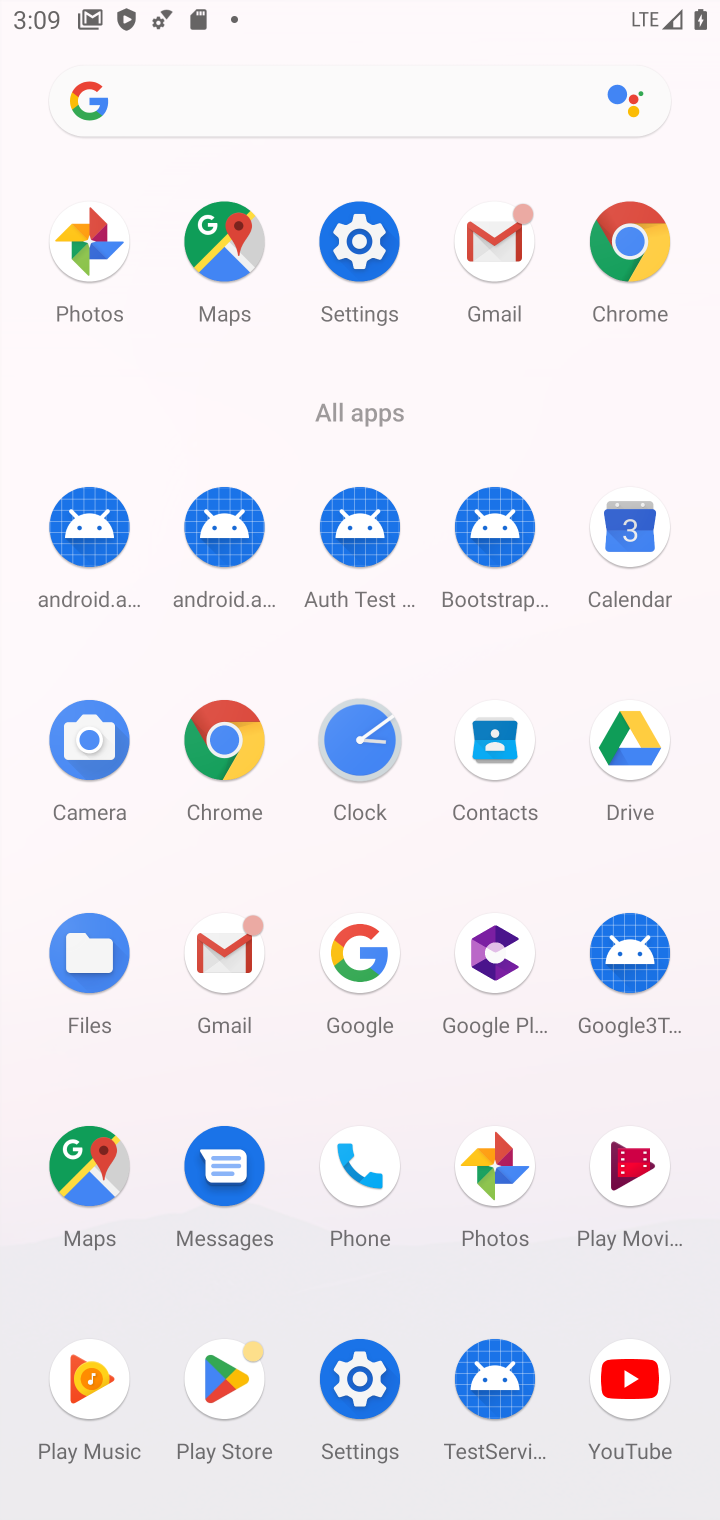
Step 27: click (341, 752)
Your task to perform on an android device: change the clock display to digital Image 28: 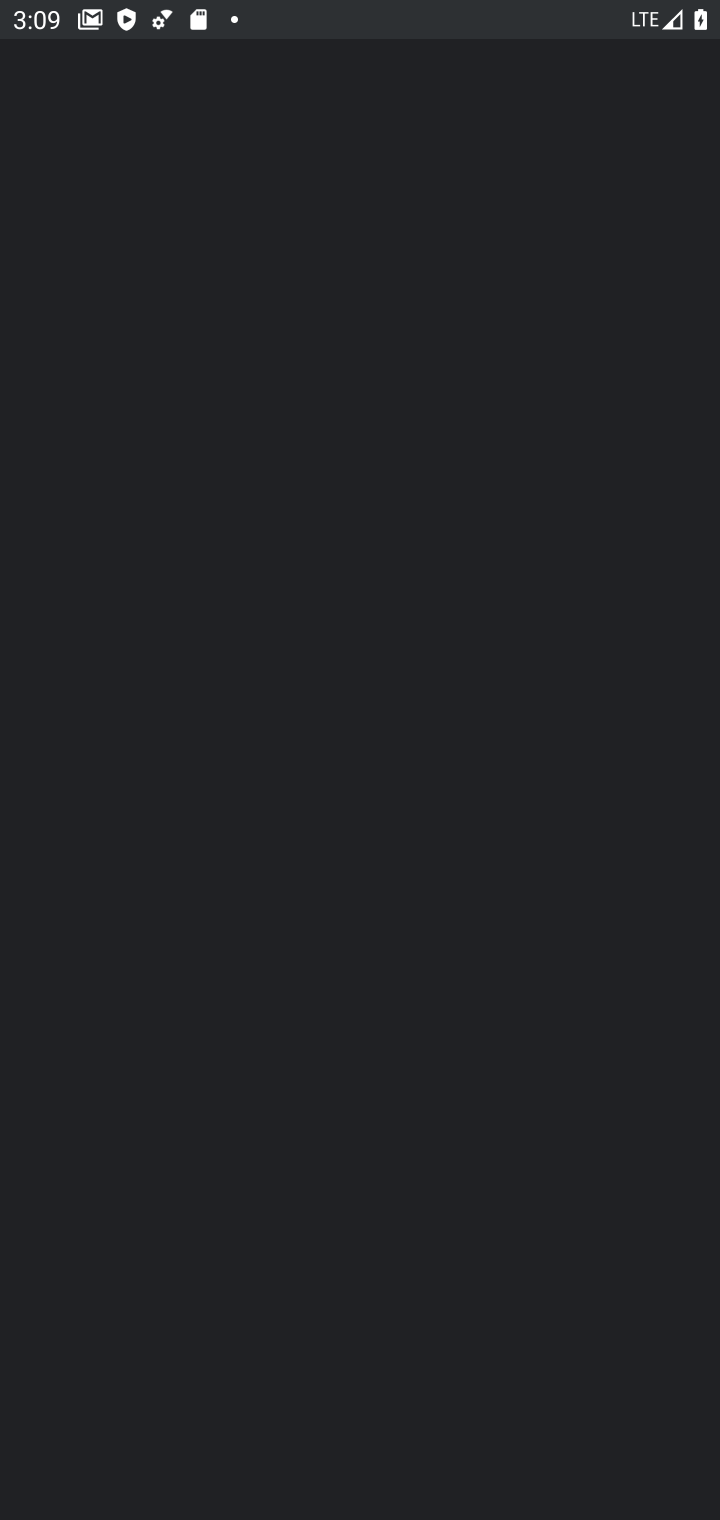
Step 28: click (353, 718)
Your task to perform on an android device: change the clock display to digital Image 29: 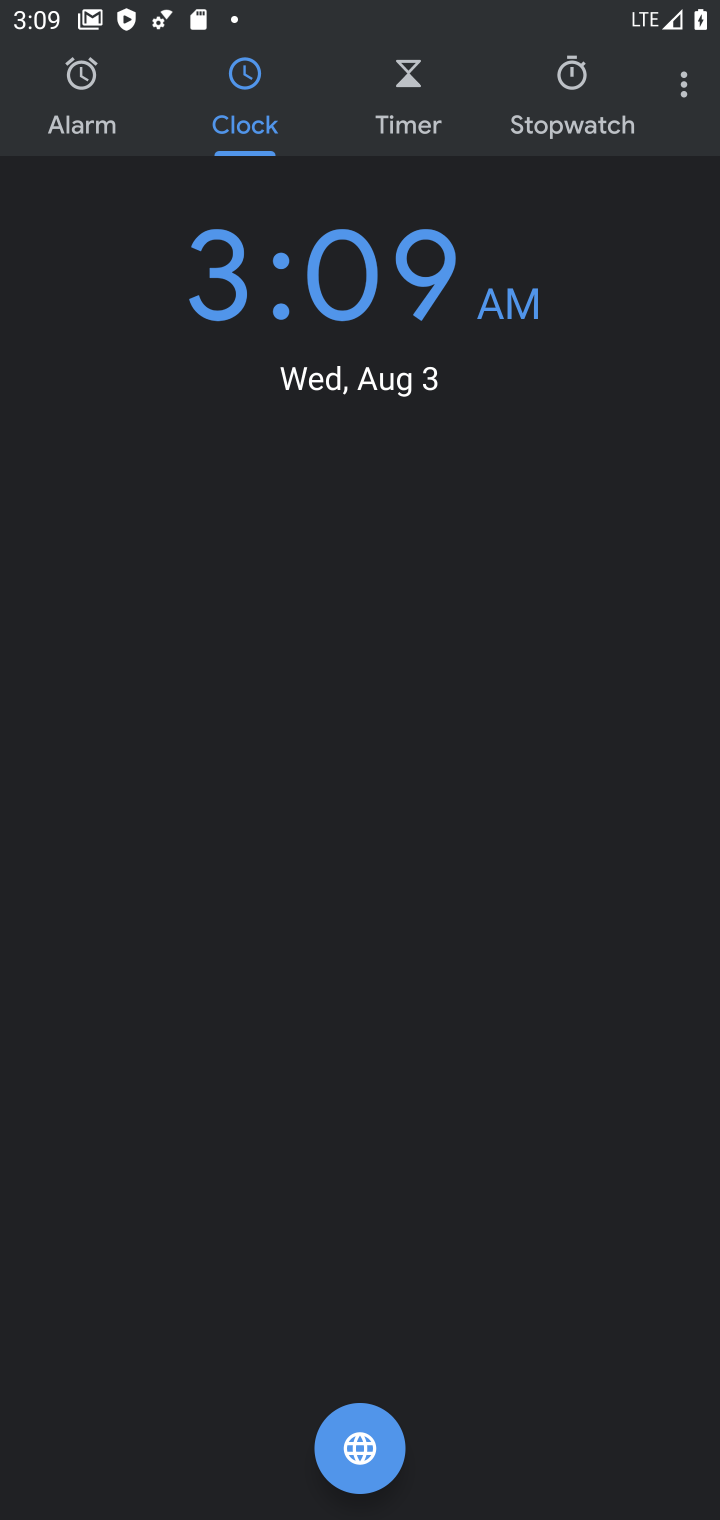
Step 29: click (686, 74)
Your task to perform on an android device: change the clock display to digital Image 30: 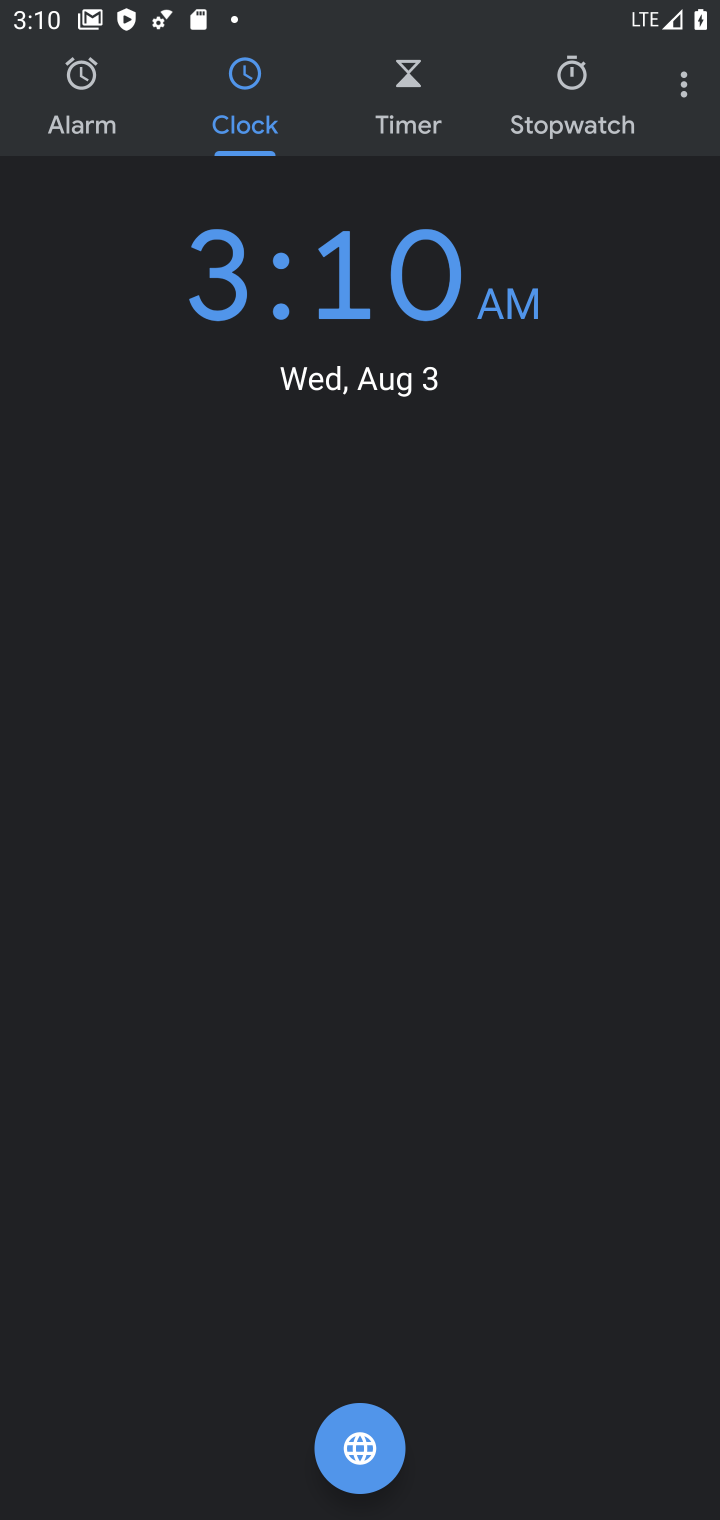
Step 30: click (659, 97)
Your task to perform on an android device: change the clock display to digital Image 31: 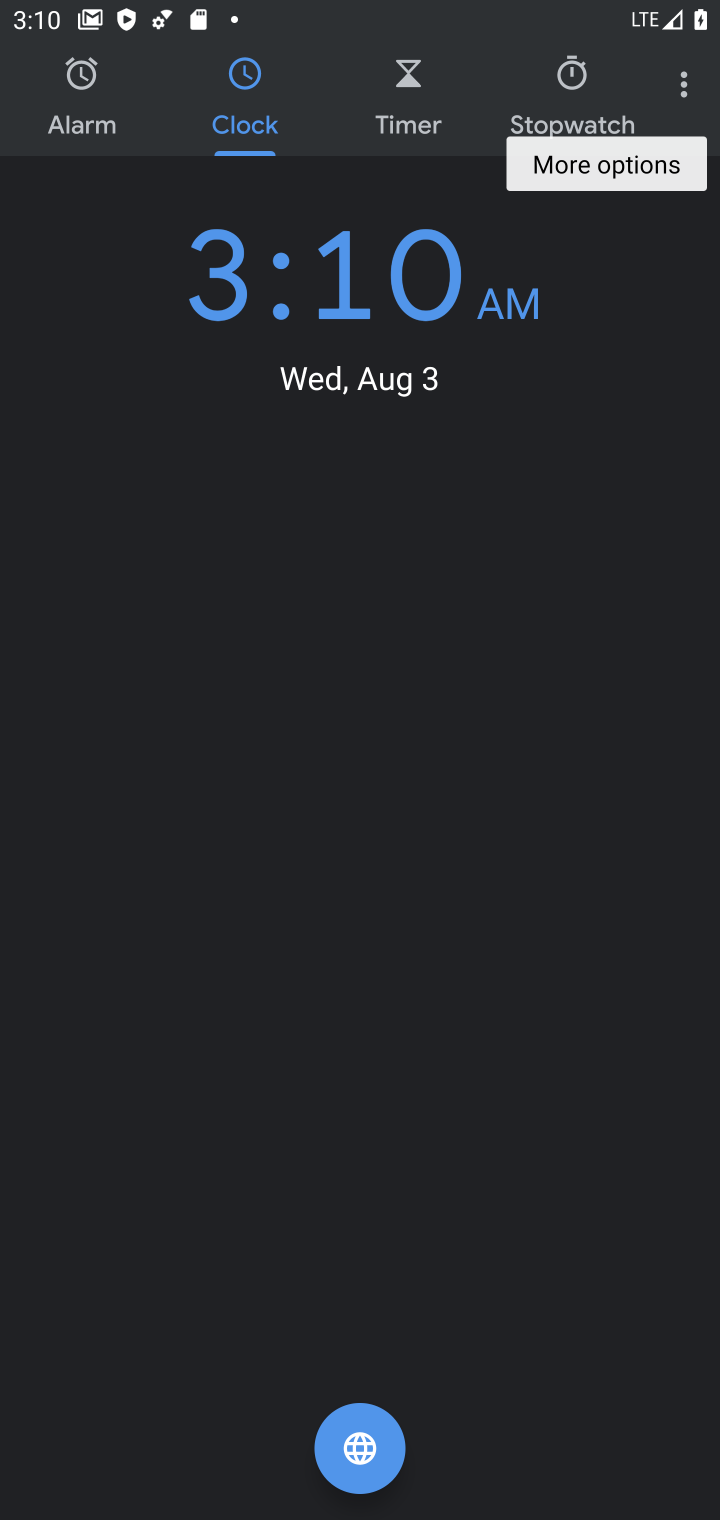
Step 31: click (627, 188)
Your task to perform on an android device: change the clock display to digital Image 32: 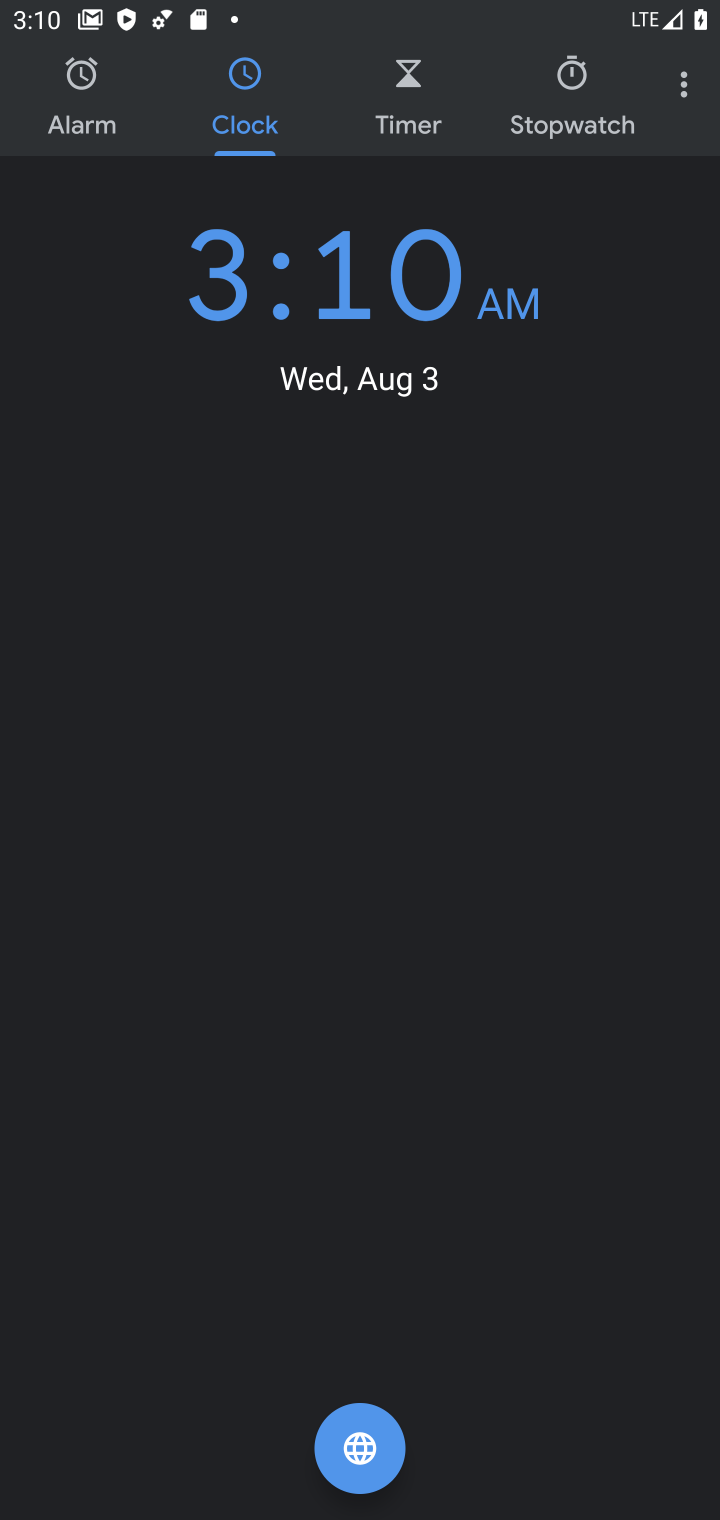
Step 32: click (608, 209)
Your task to perform on an android device: change the clock display to digital Image 33: 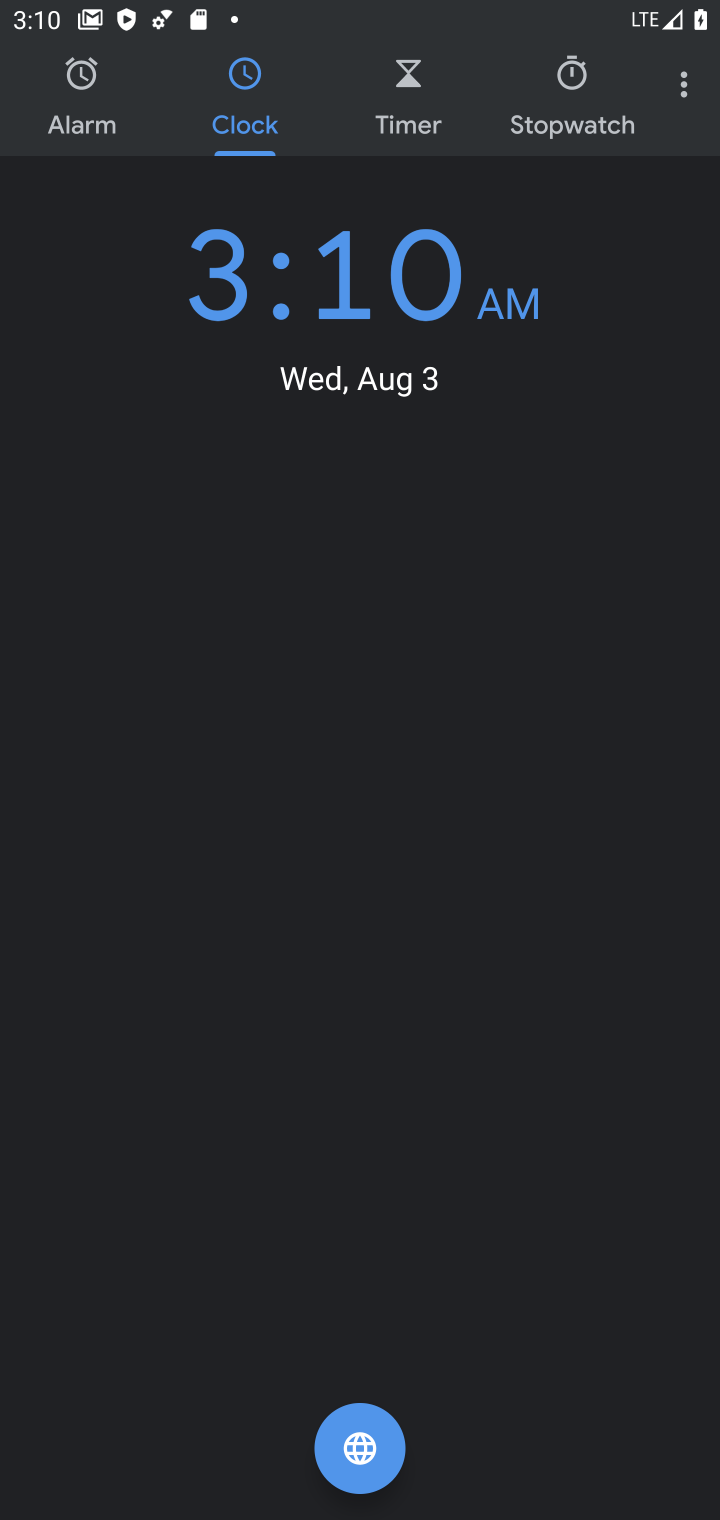
Step 33: click (668, 71)
Your task to perform on an android device: change the clock display to digital Image 34: 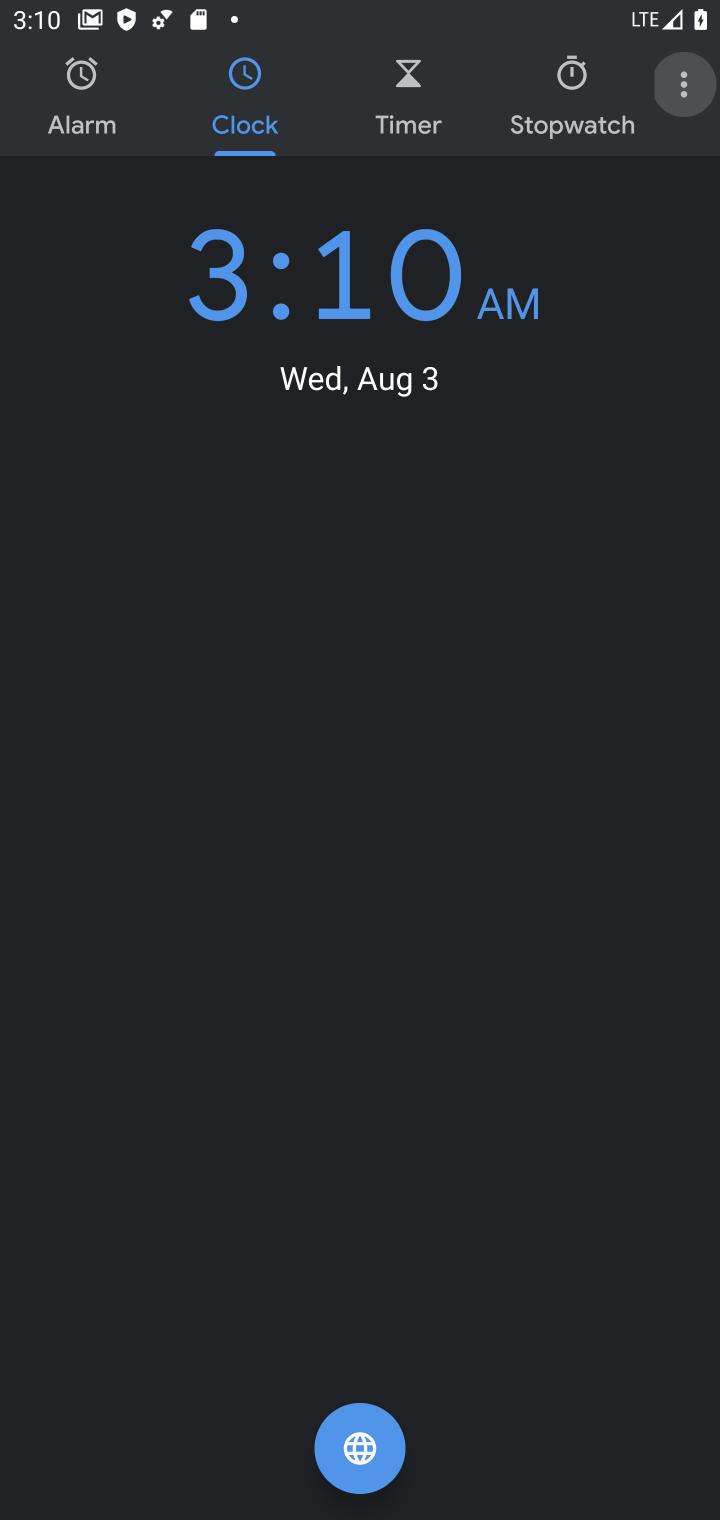
Step 34: click (668, 71)
Your task to perform on an android device: change the clock display to digital Image 35: 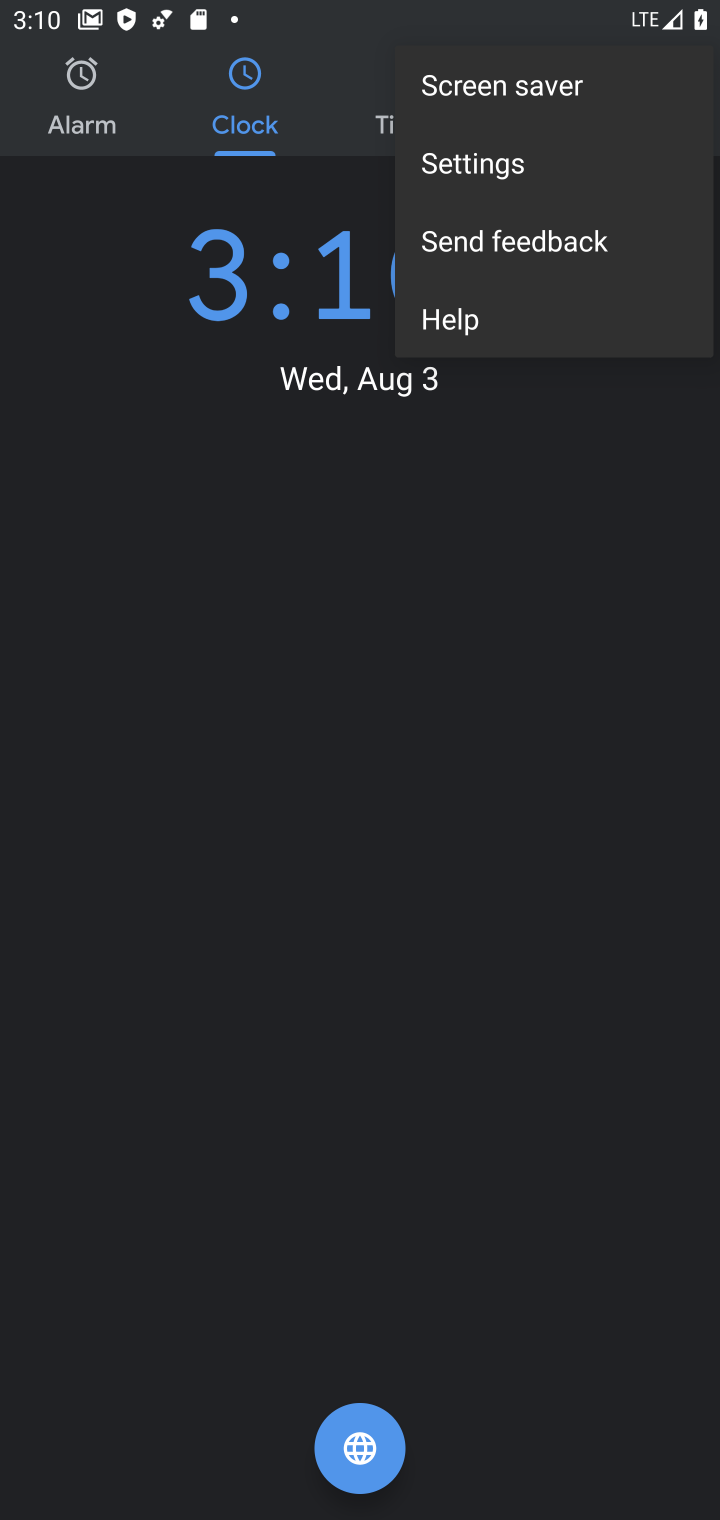
Step 35: click (451, 153)
Your task to perform on an android device: change the clock display to digital Image 36: 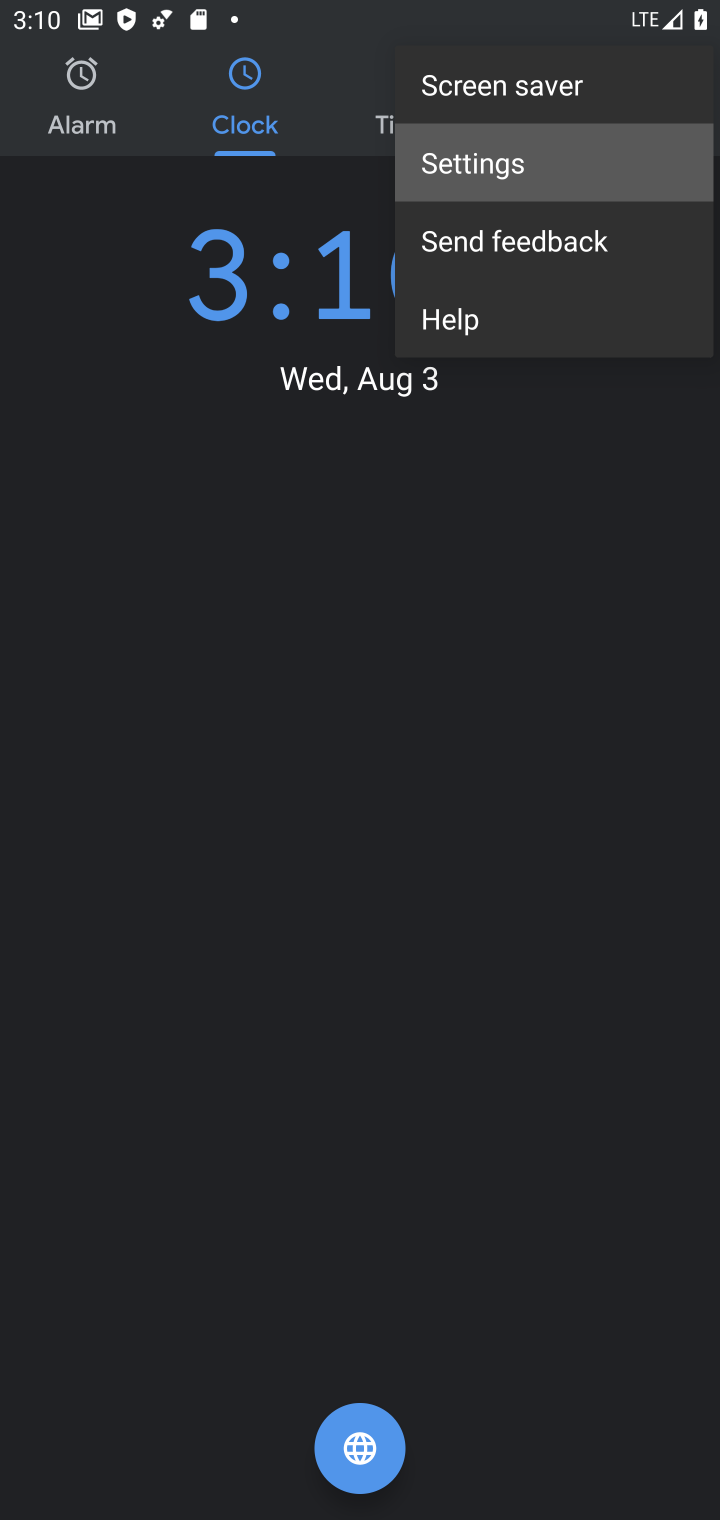
Step 36: click (454, 157)
Your task to perform on an android device: change the clock display to digital Image 37: 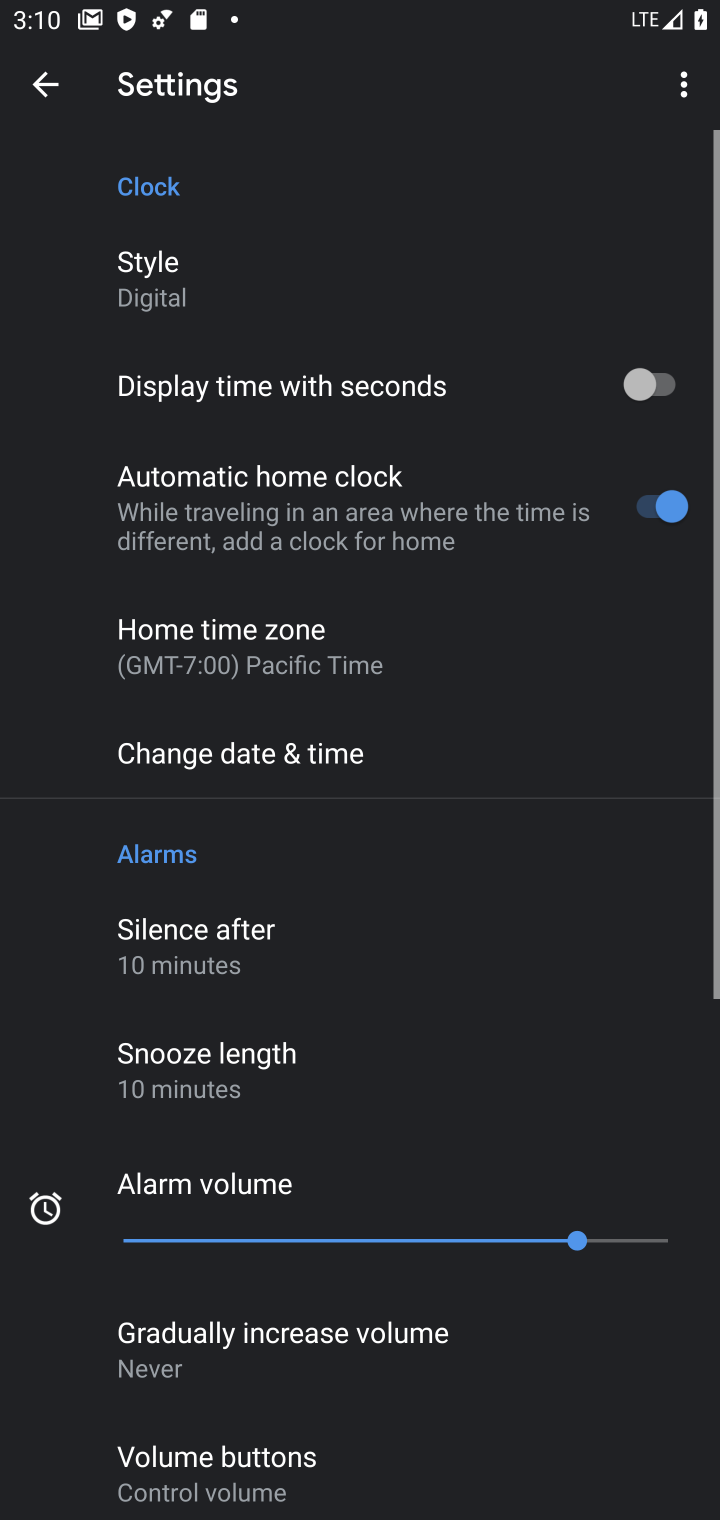
Step 37: click (473, 160)
Your task to perform on an android device: change the clock display to digital Image 38: 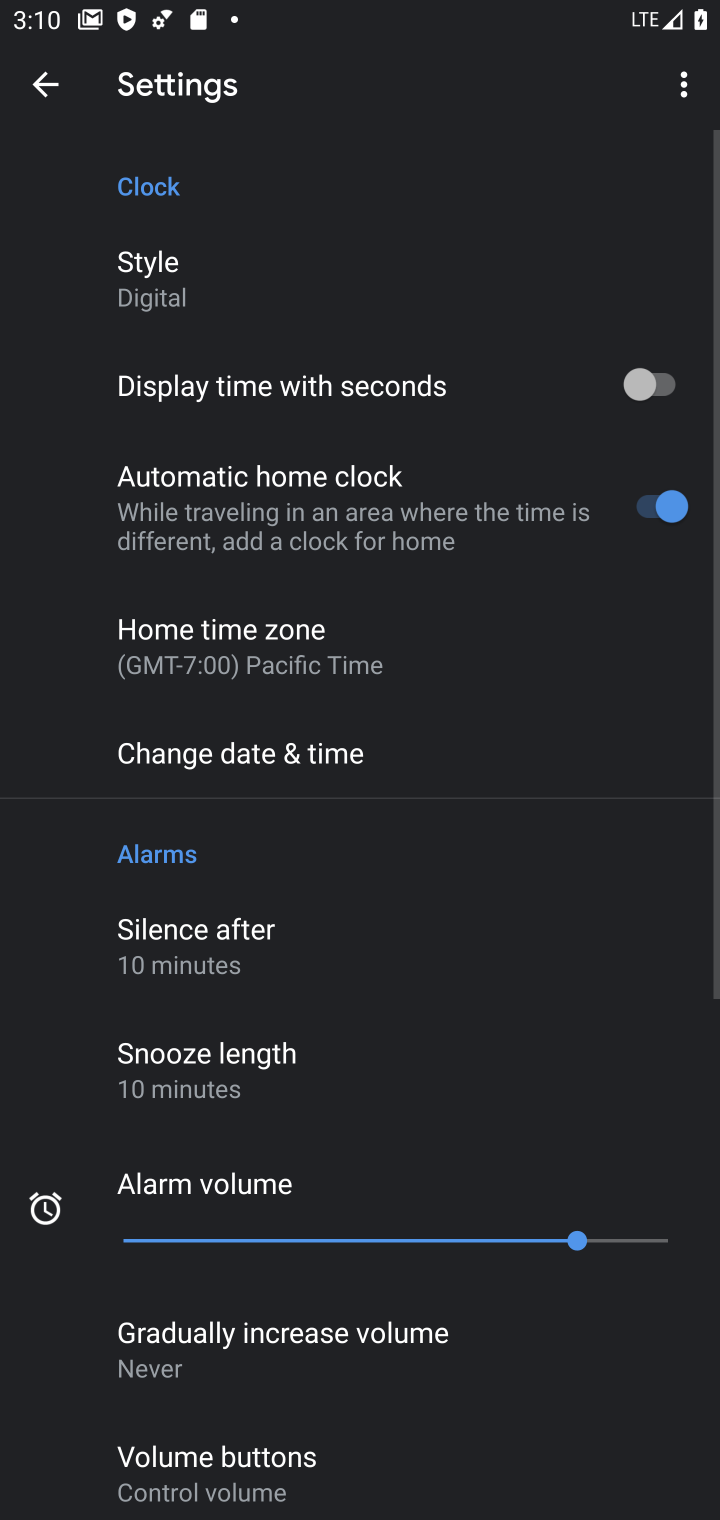
Step 38: click (175, 270)
Your task to perform on an android device: change the clock display to digital Image 39: 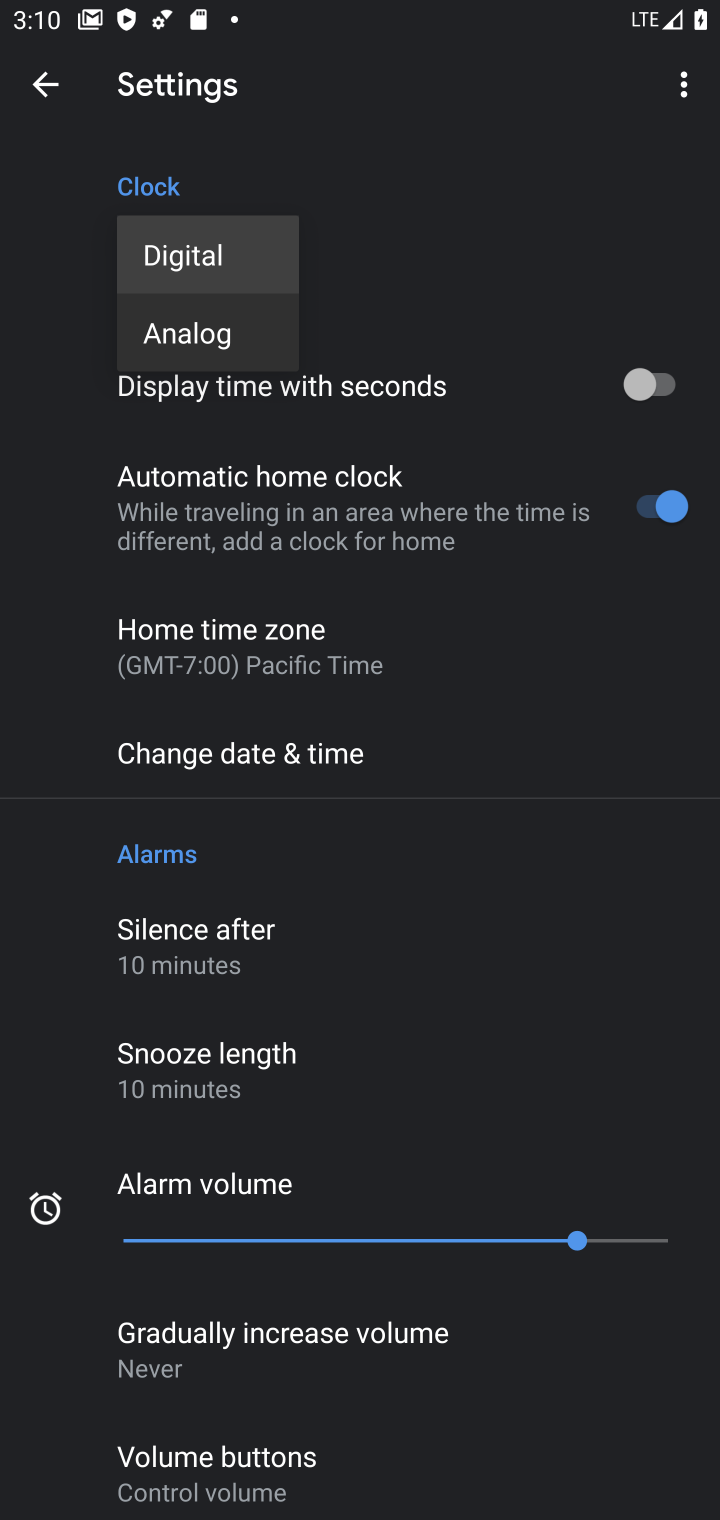
Step 39: click (176, 268)
Your task to perform on an android device: change the clock display to digital Image 40: 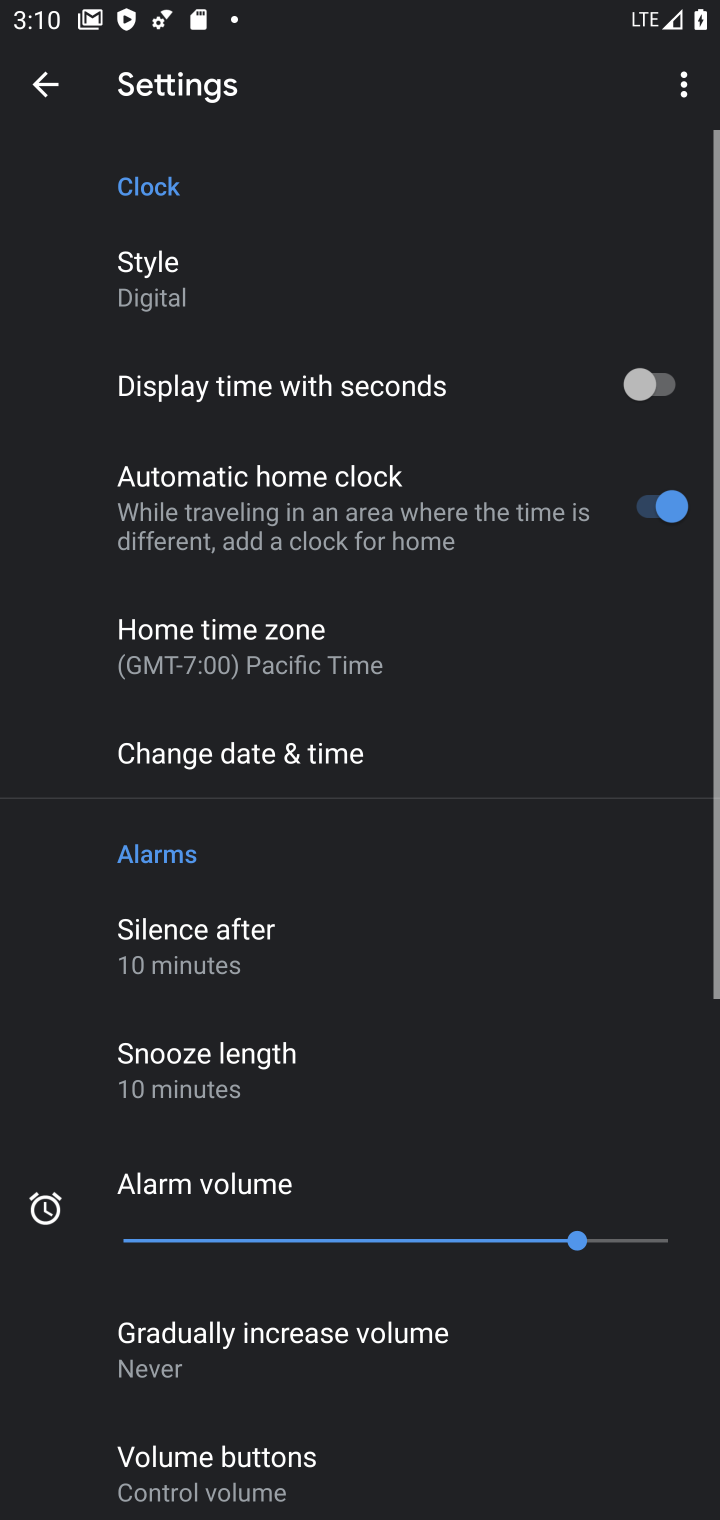
Step 40: task complete